Your task to perform on an android device: Go to ESPN.com Image 0: 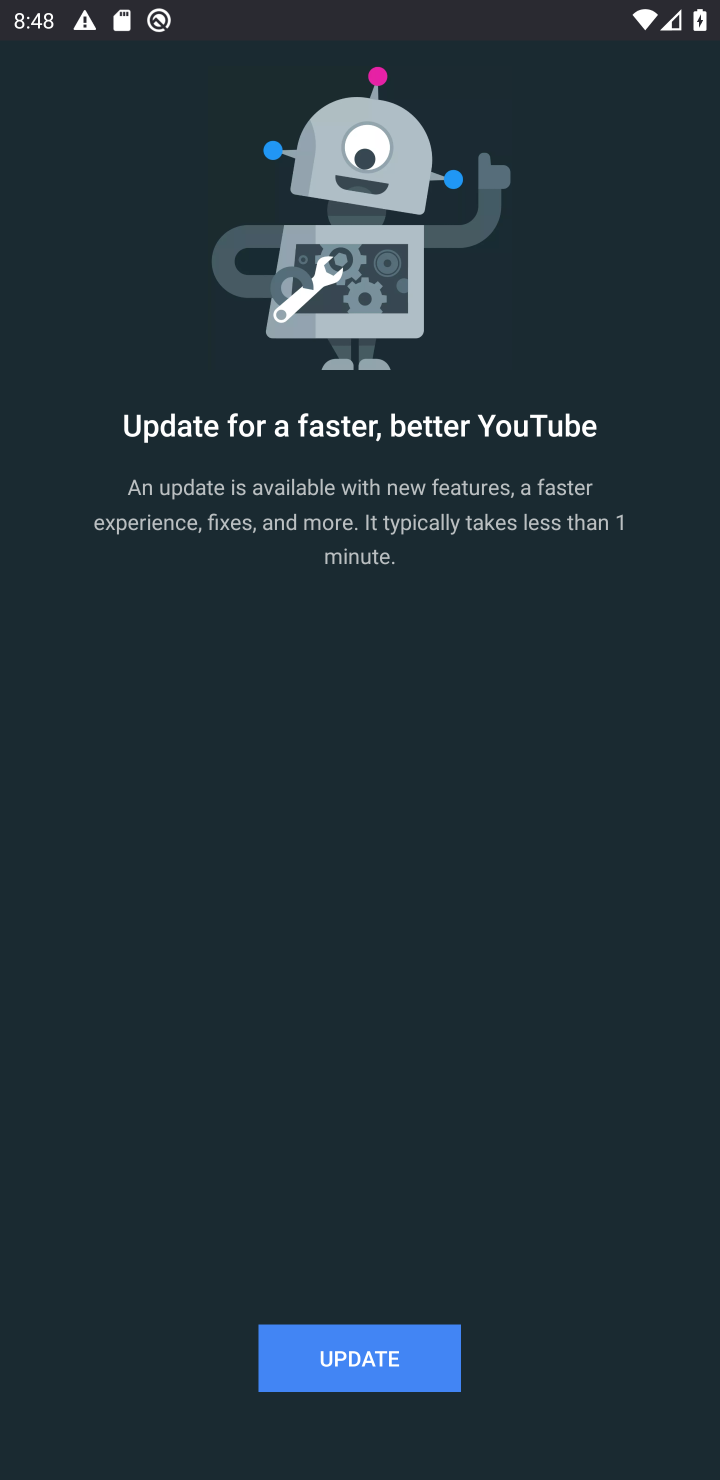
Step 0: drag from (384, 921) to (363, 510)
Your task to perform on an android device: Go to ESPN.com Image 1: 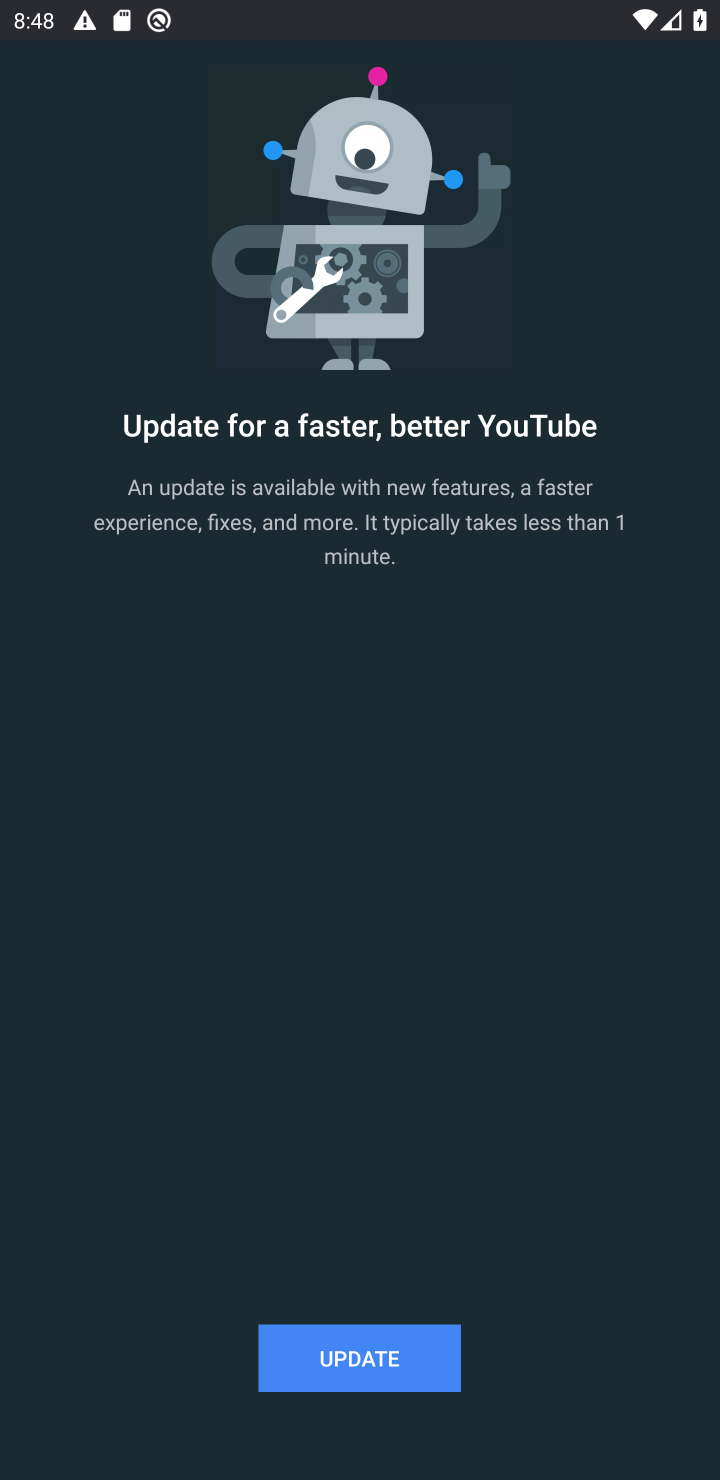
Step 1: click (337, 0)
Your task to perform on an android device: Go to ESPN.com Image 2: 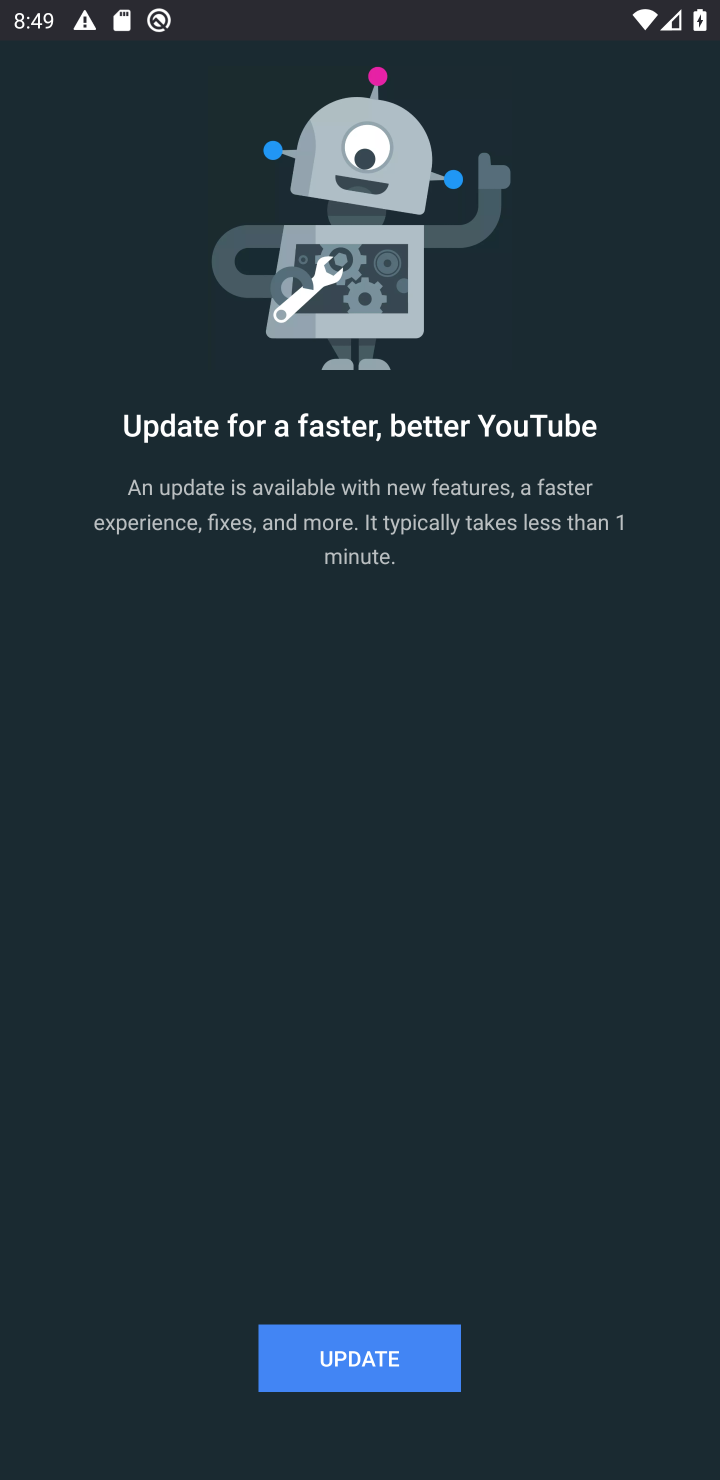
Step 2: press back button
Your task to perform on an android device: Go to ESPN.com Image 3: 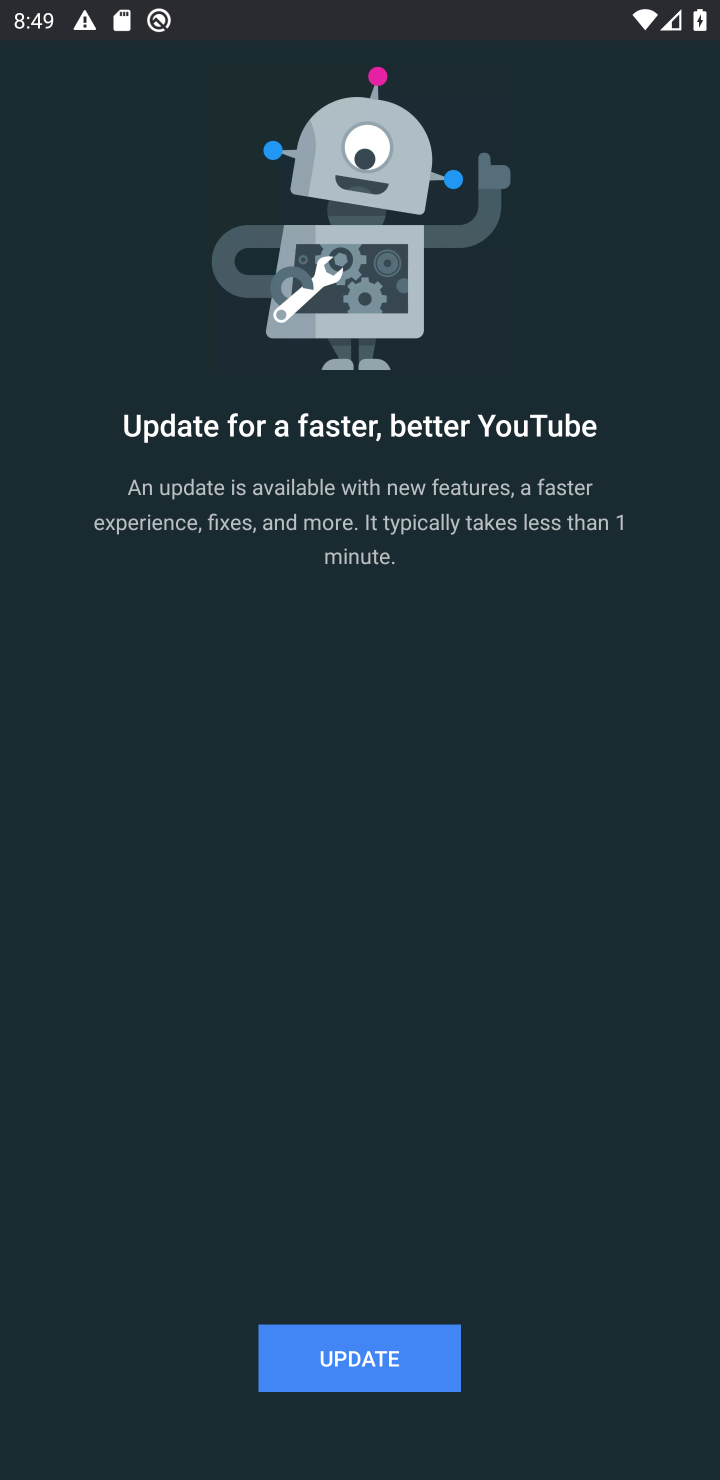
Step 3: press back button
Your task to perform on an android device: Go to ESPN.com Image 4: 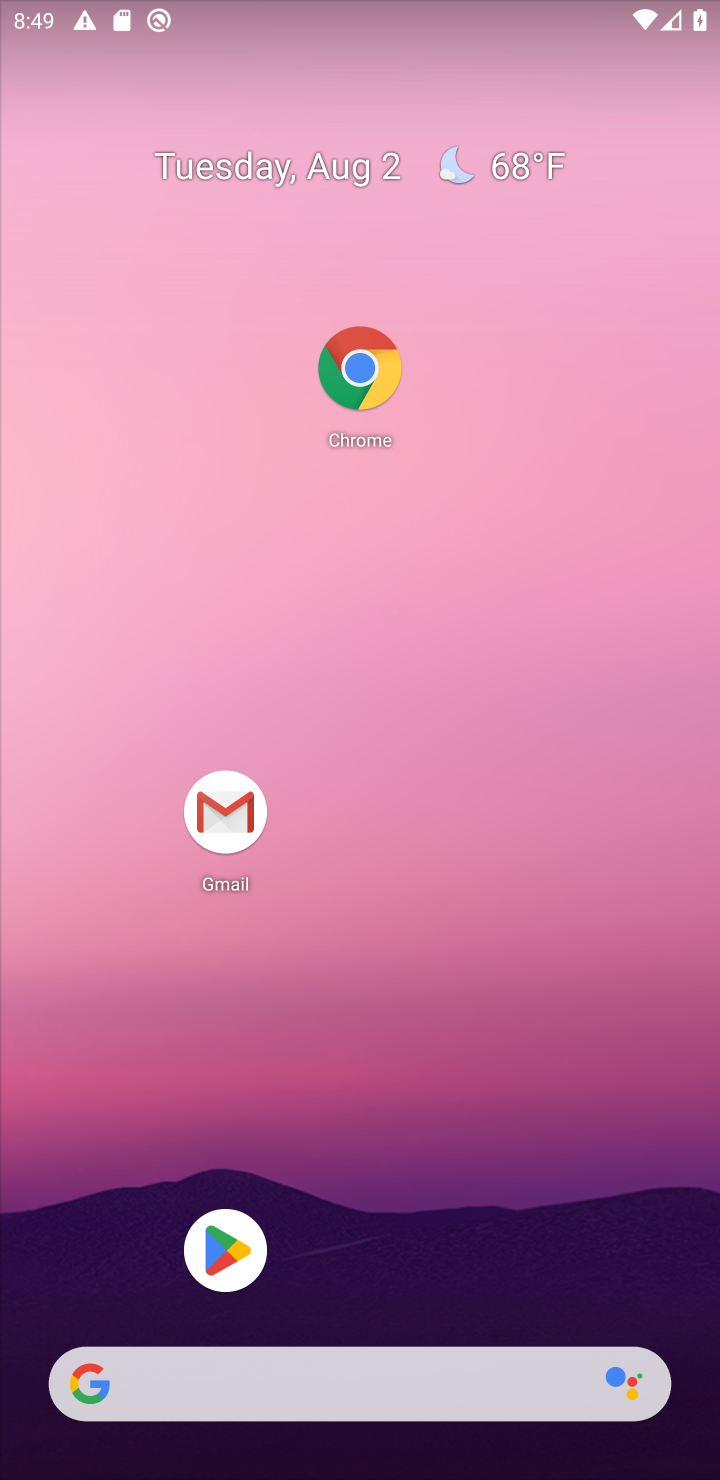
Step 4: click (356, 350)
Your task to perform on an android device: Go to ESPN.com Image 5: 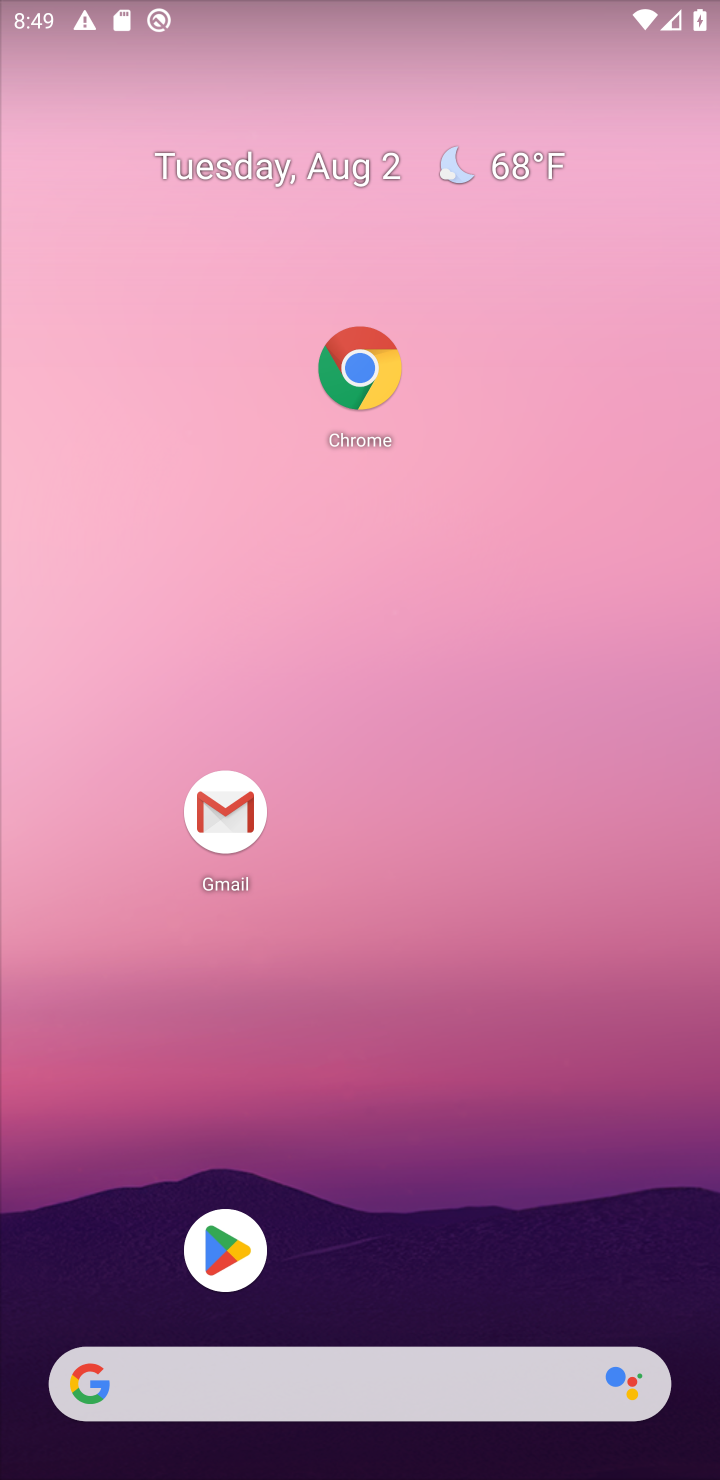
Step 5: drag from (332, 1061) to (300, 512)
Your task to perform on an android device: Go to ESPN.com Image 6: 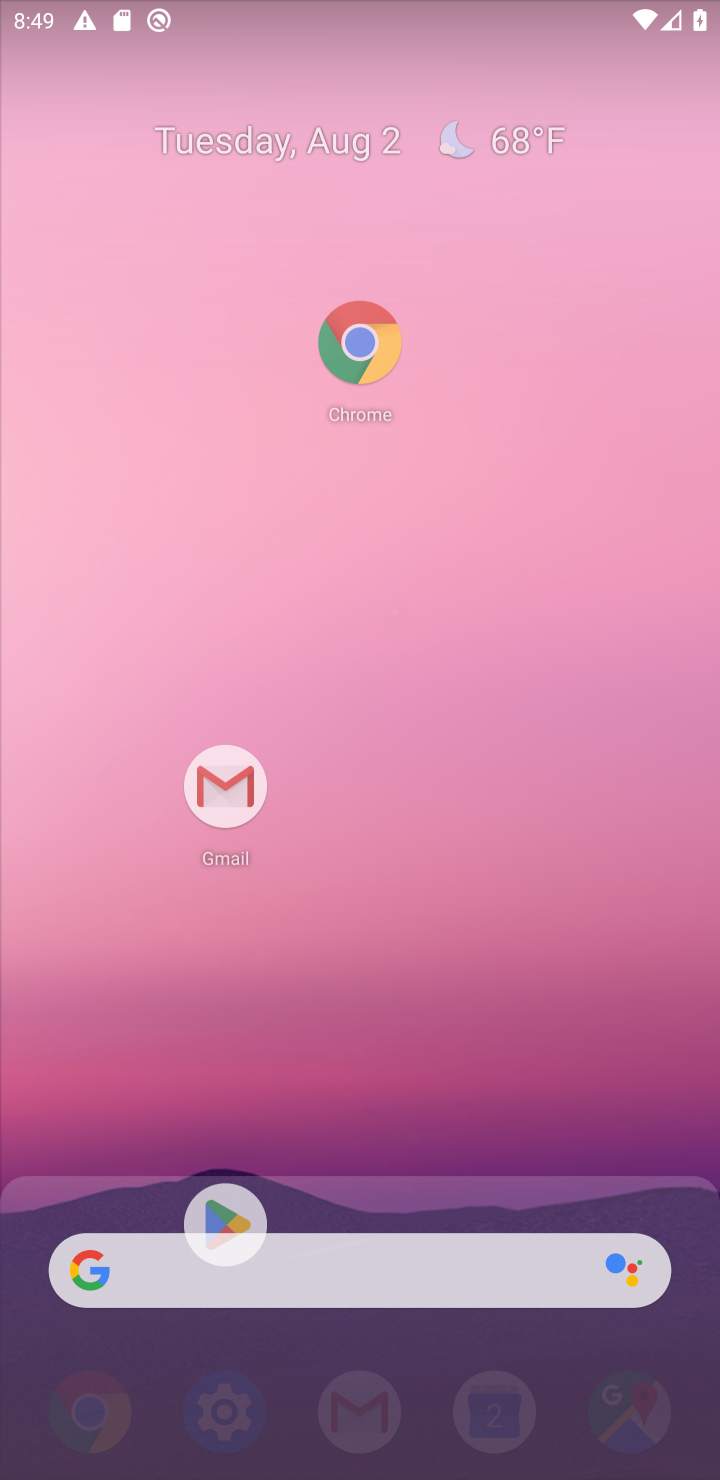
Step 6: drag from (333, 387) to (457, 332)
Your task to perform on an android device: Go to ESPN.com Image 7: 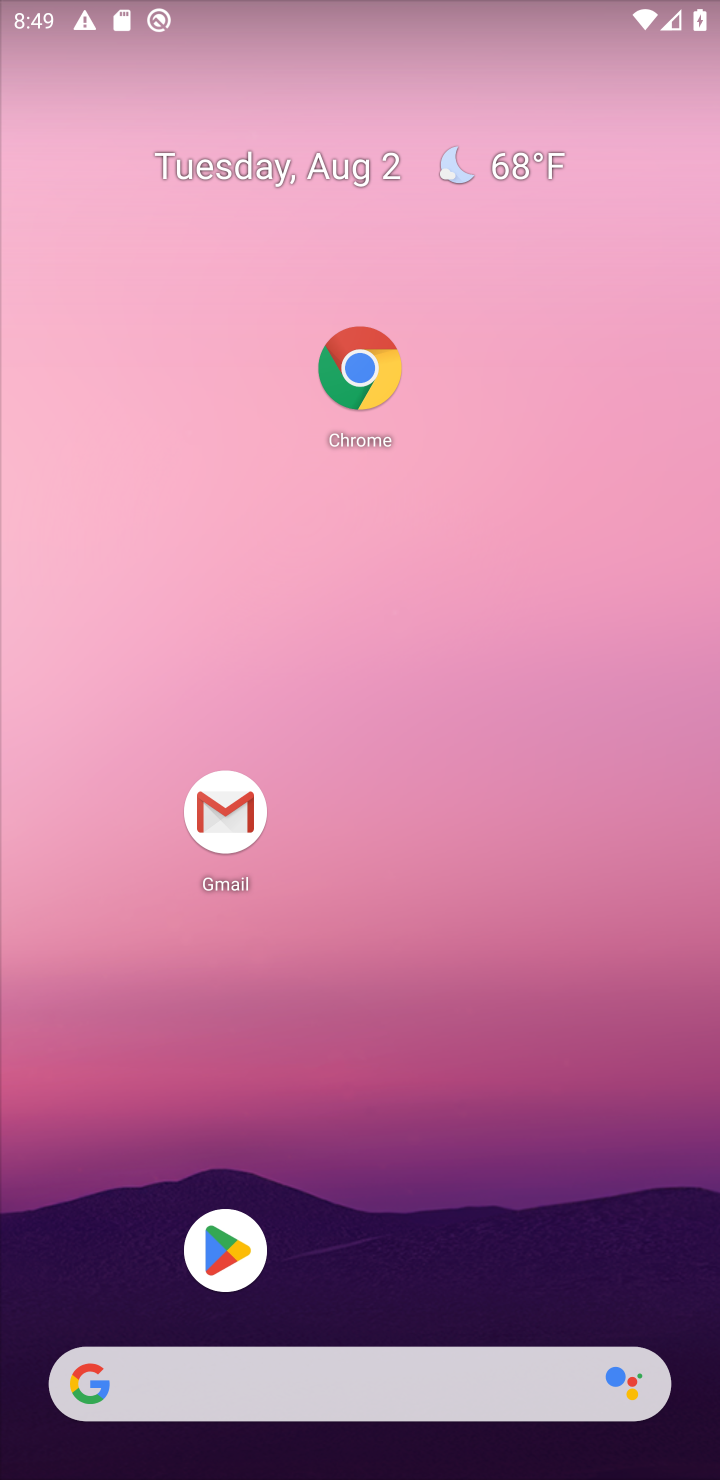
Step 7: drag from (455, 1268) to (440, 642)
Your task to perform on an android device: Go to ESPN.com Image 8: 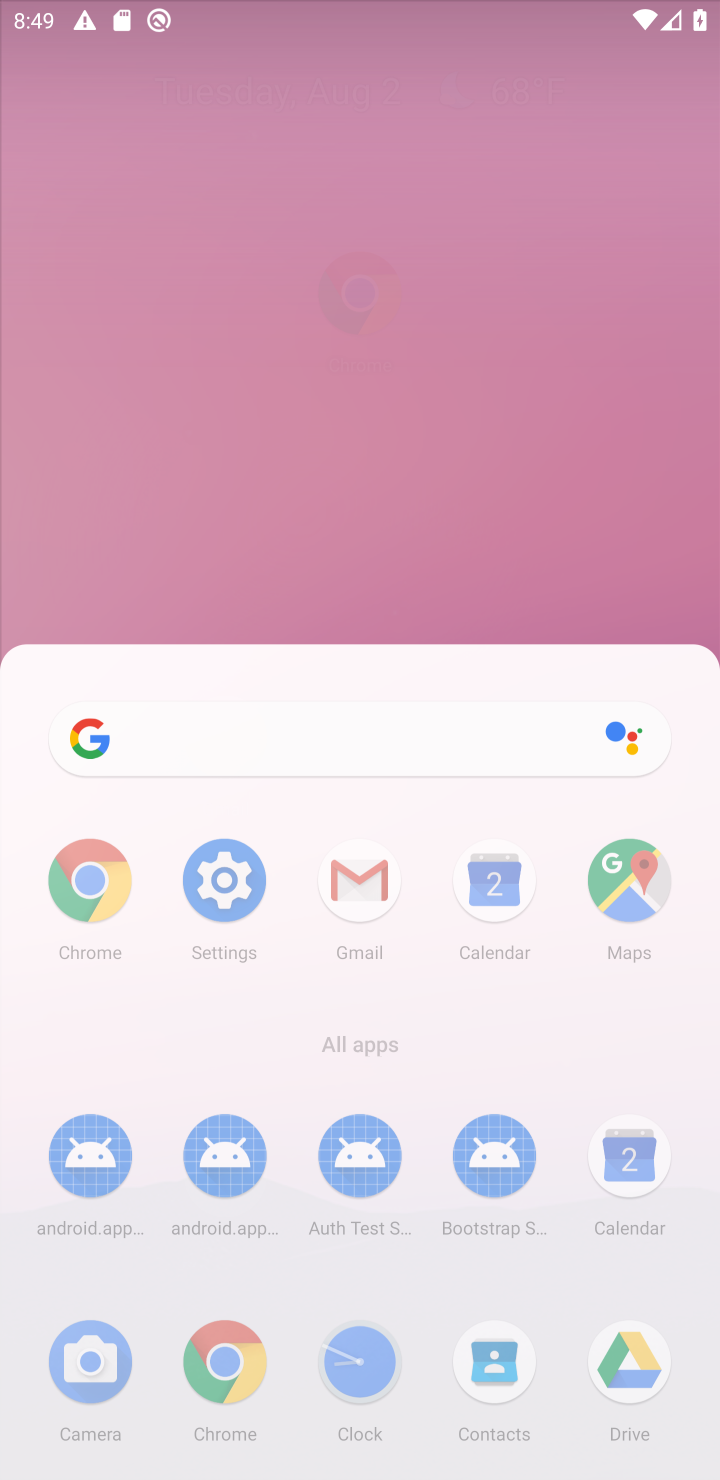
Step 8: drag from (446, 751) to (299, 664)
Your task to perform on an android device: Go to ESPN.com Image 9: 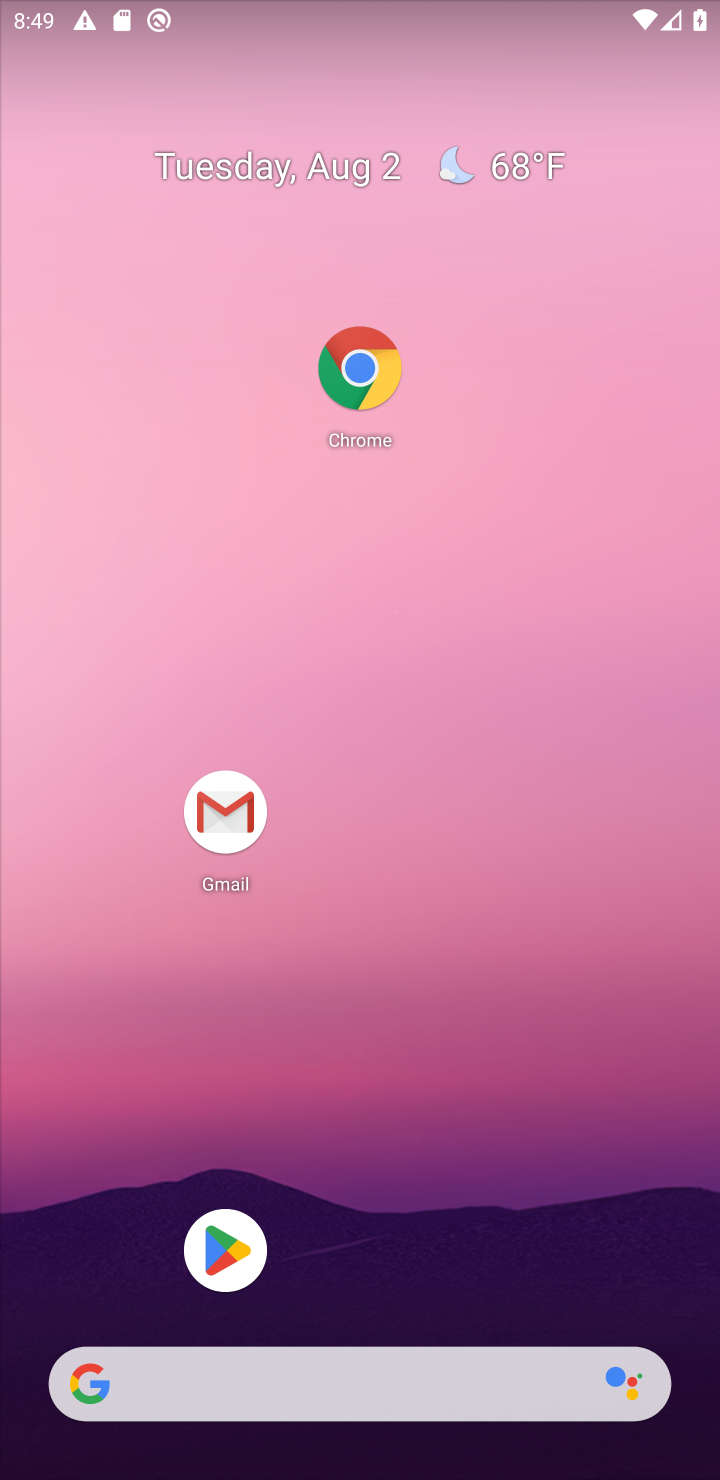
Step 9: drag from (350, 1174) to (299, 523)
Your task to perform on an android device: Go to ESPN.com Image 10: 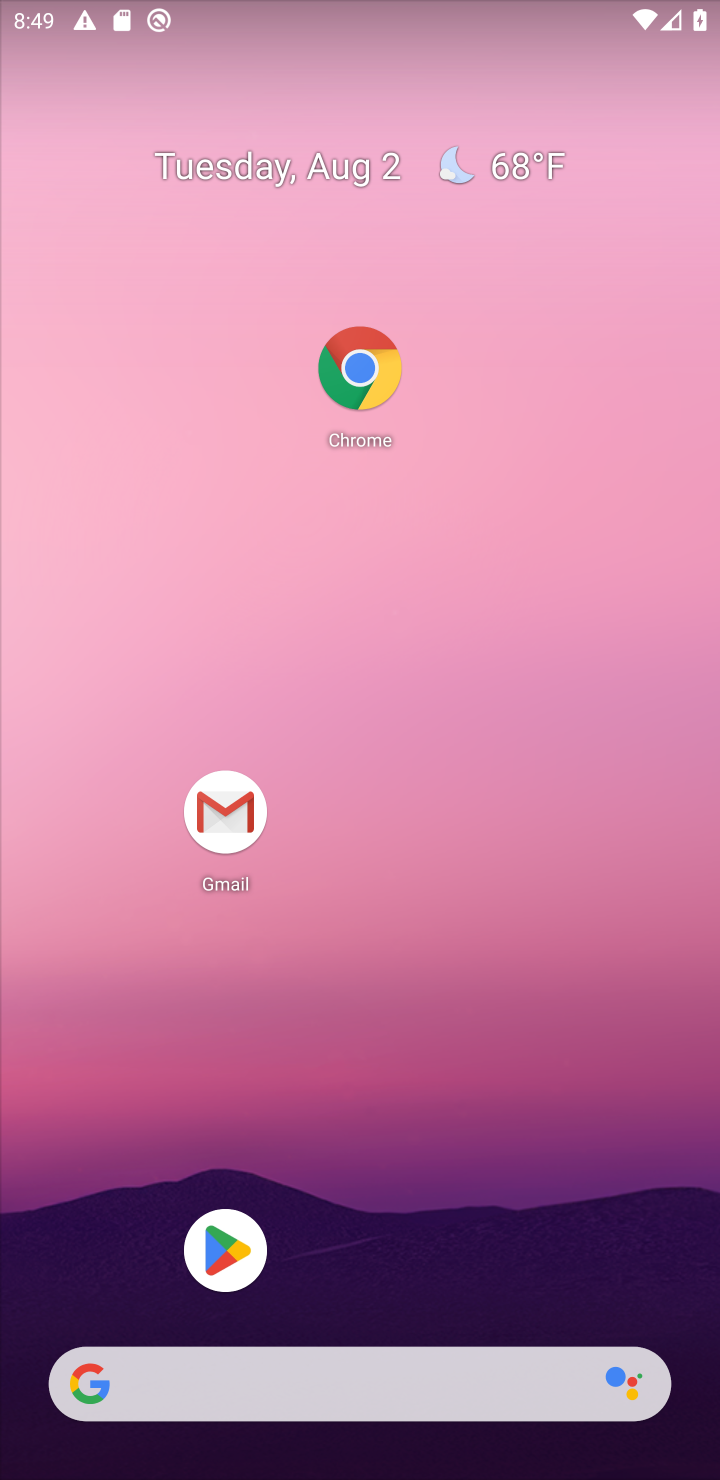
Step 10: drag from (361, 309) to (458, 651)
Your task to perform on an android device: Go to ESPN.com Image 11: 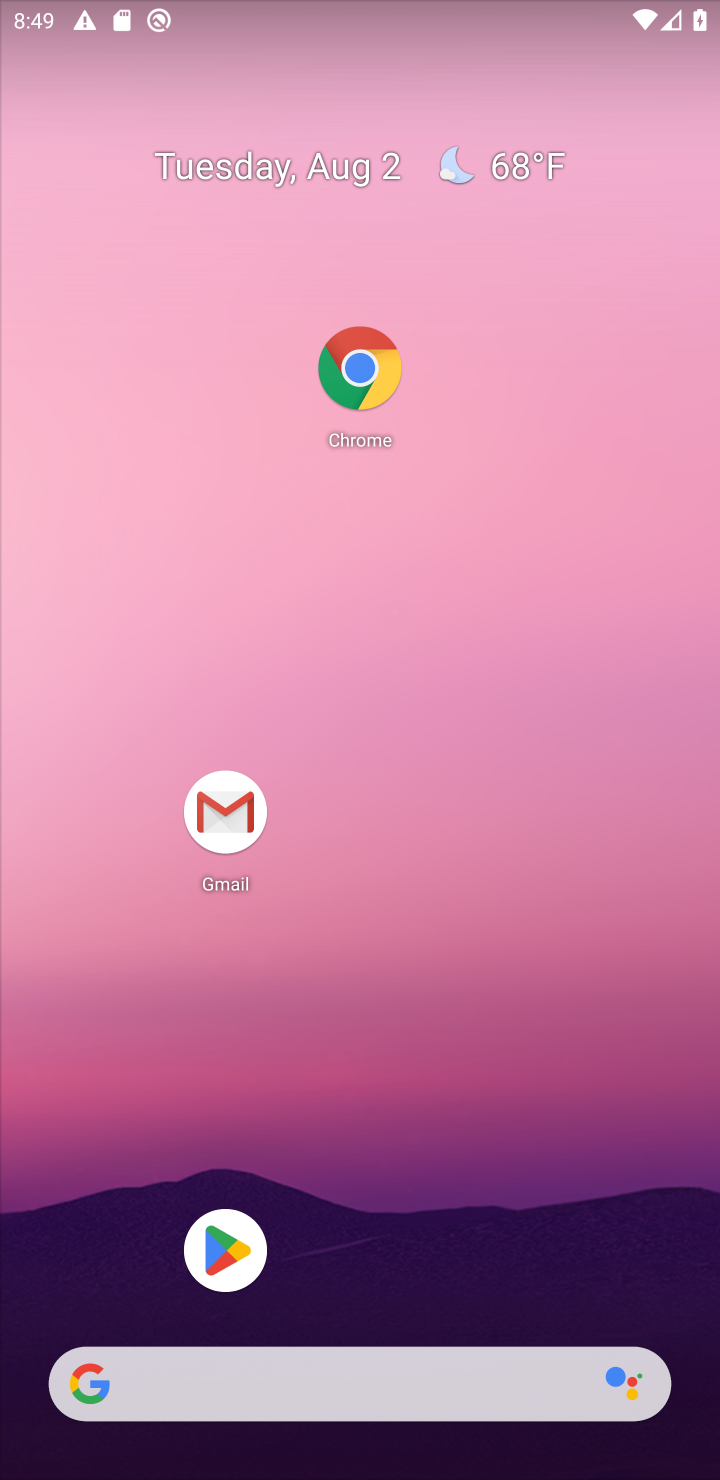
Step 11: drag from (427, 1236) to (461, 581)
Your task to perform on an android device: Go to ESPN.com Image 12: 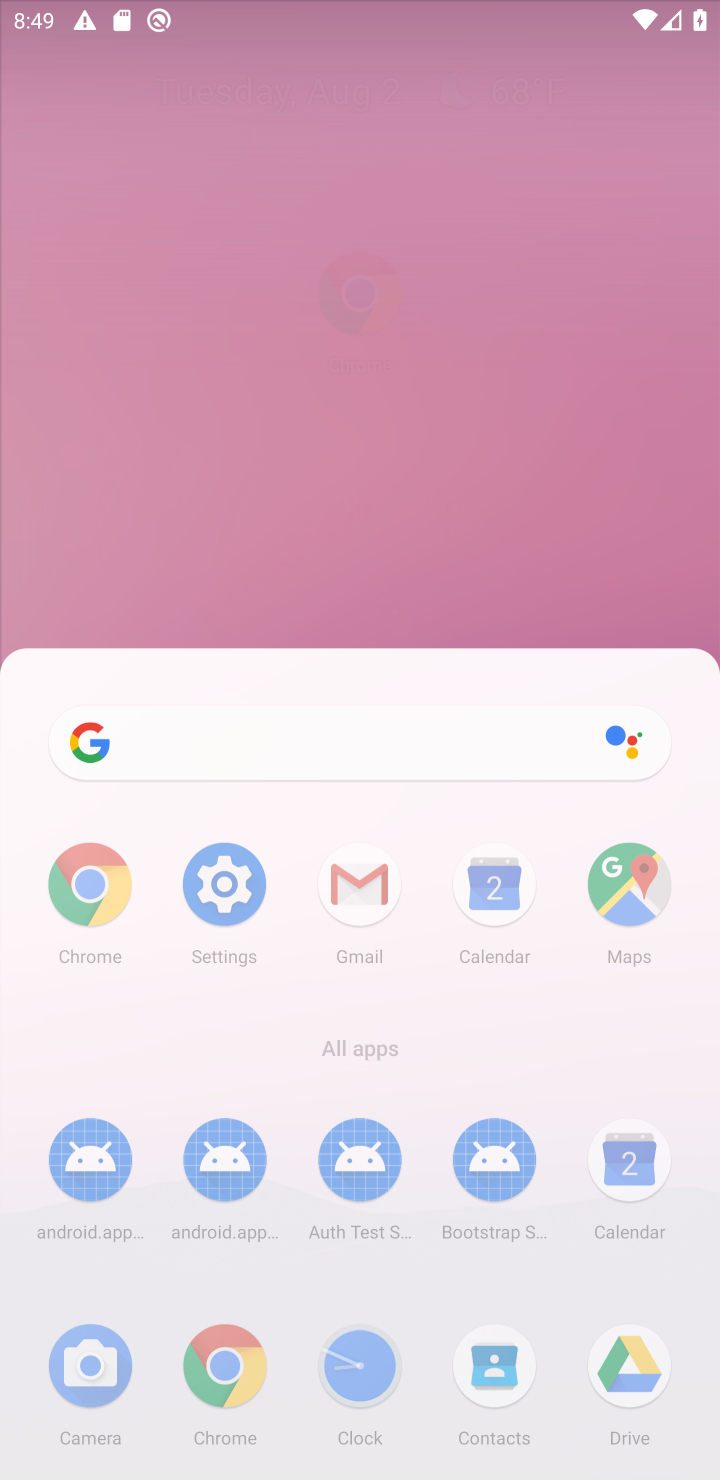
Step 12: click (334, 458)
Your task to perform on an android device: Go to ESPN.com Image 13: 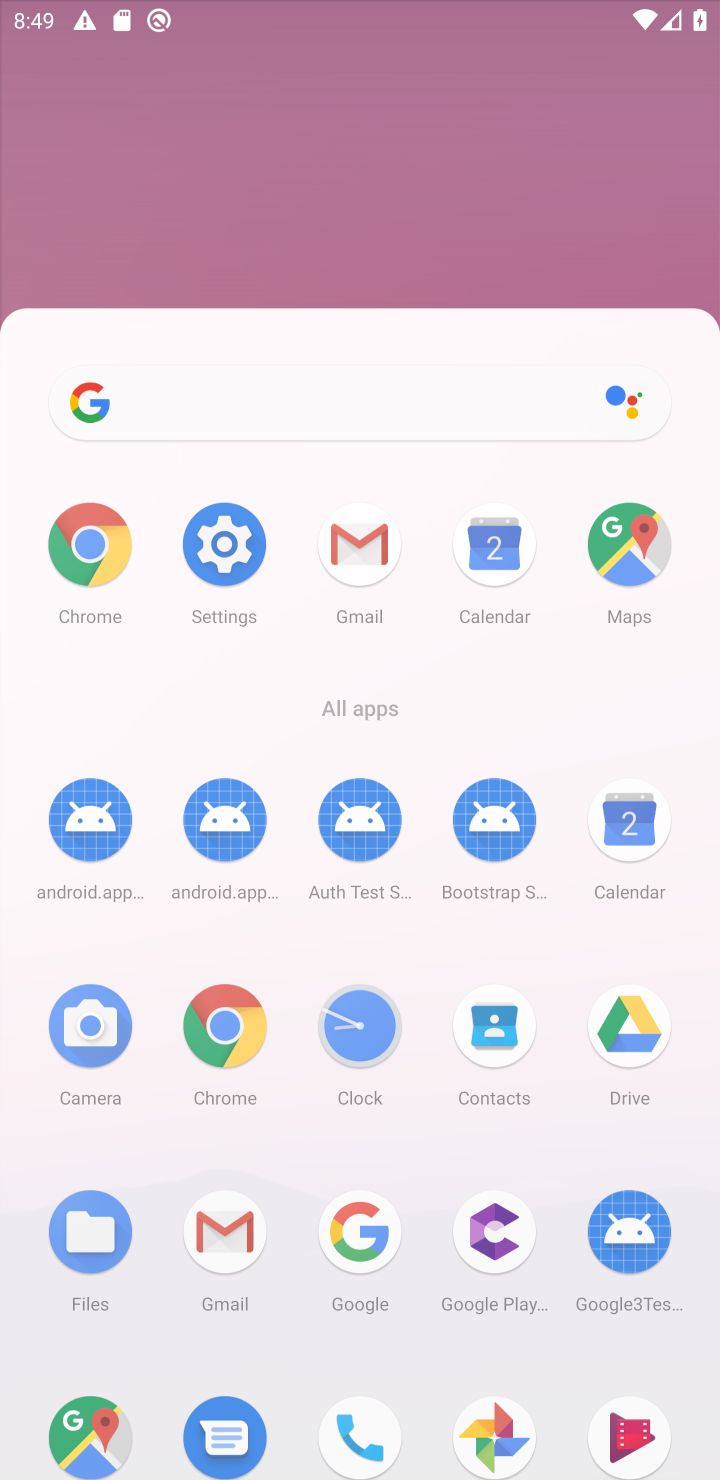
Step 13: drag from (451, 350) to (470, 153)
Your task to perform on an android device: Go to ESPN.com Image 14: 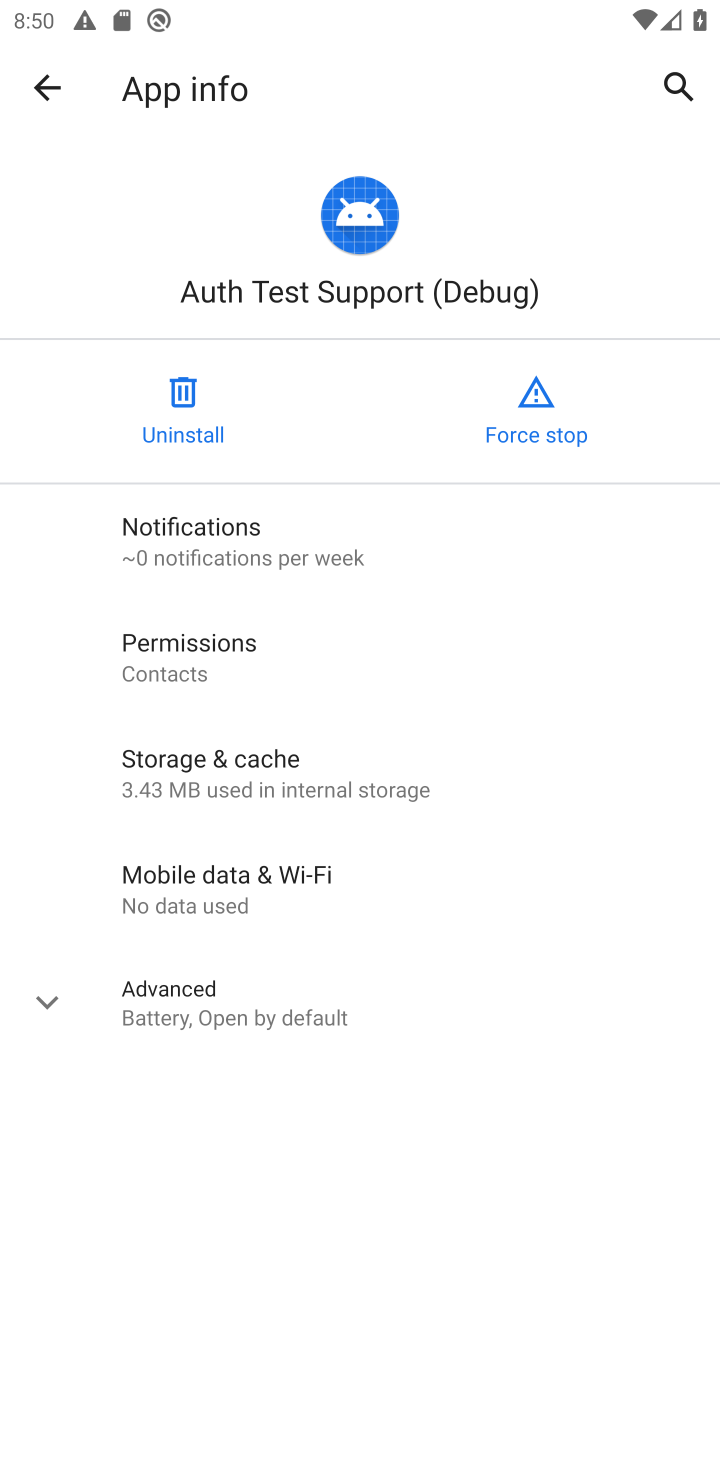
Step 14: click (38, 99)
Your task to perform on an android device: Go to ESPN.com Image 15: 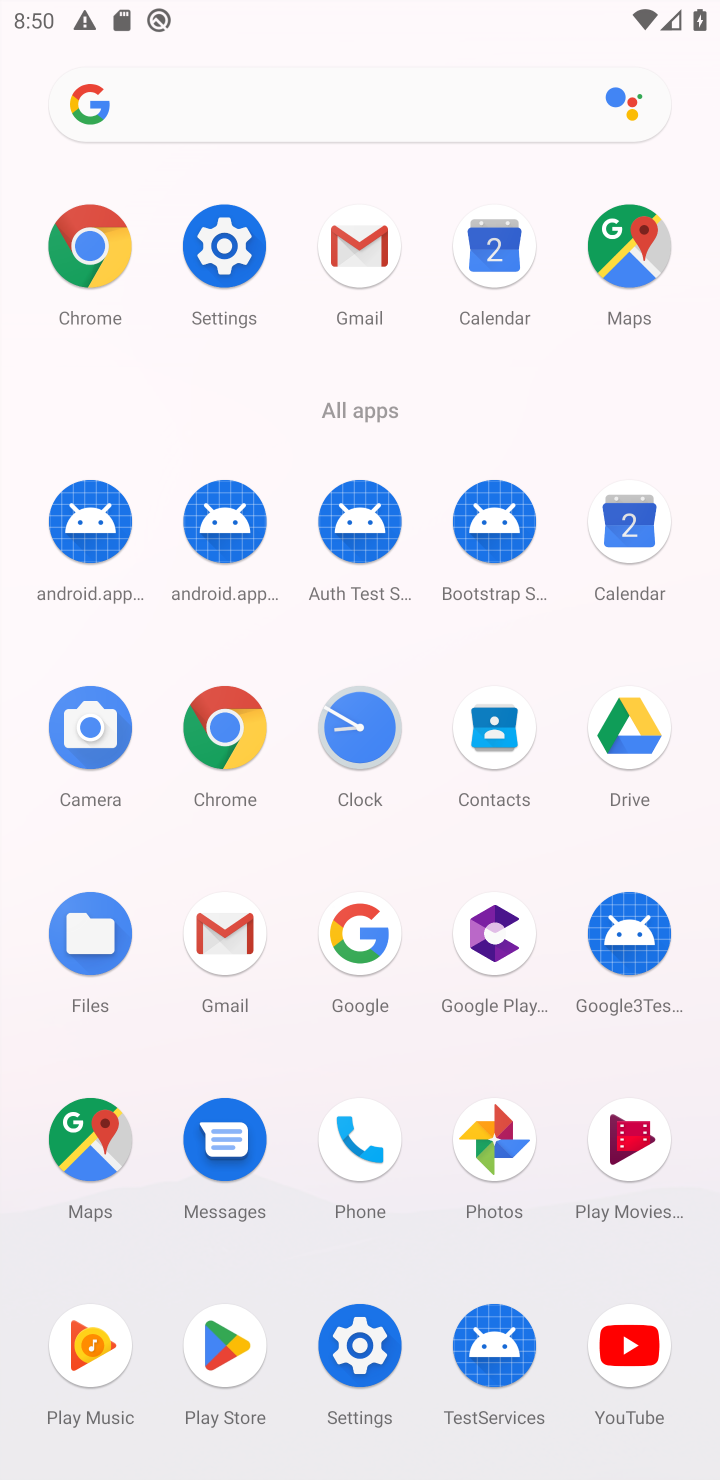
Step 15: click (85, 265)
Your task to perform on an android device: Go to ESPN.com Image 16: 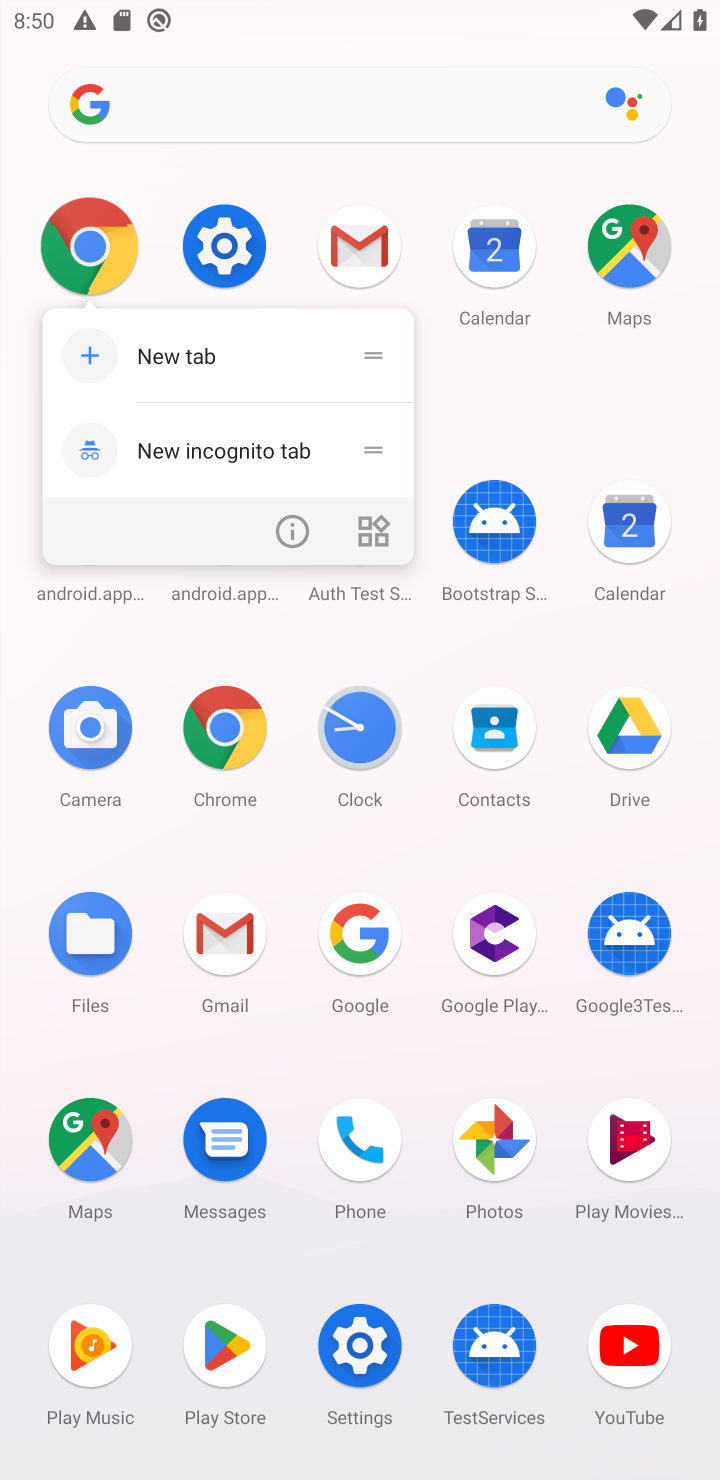
Step 16: click (83, 265)
Your task to perform on an android device: Go to ESPN.com Image 17: 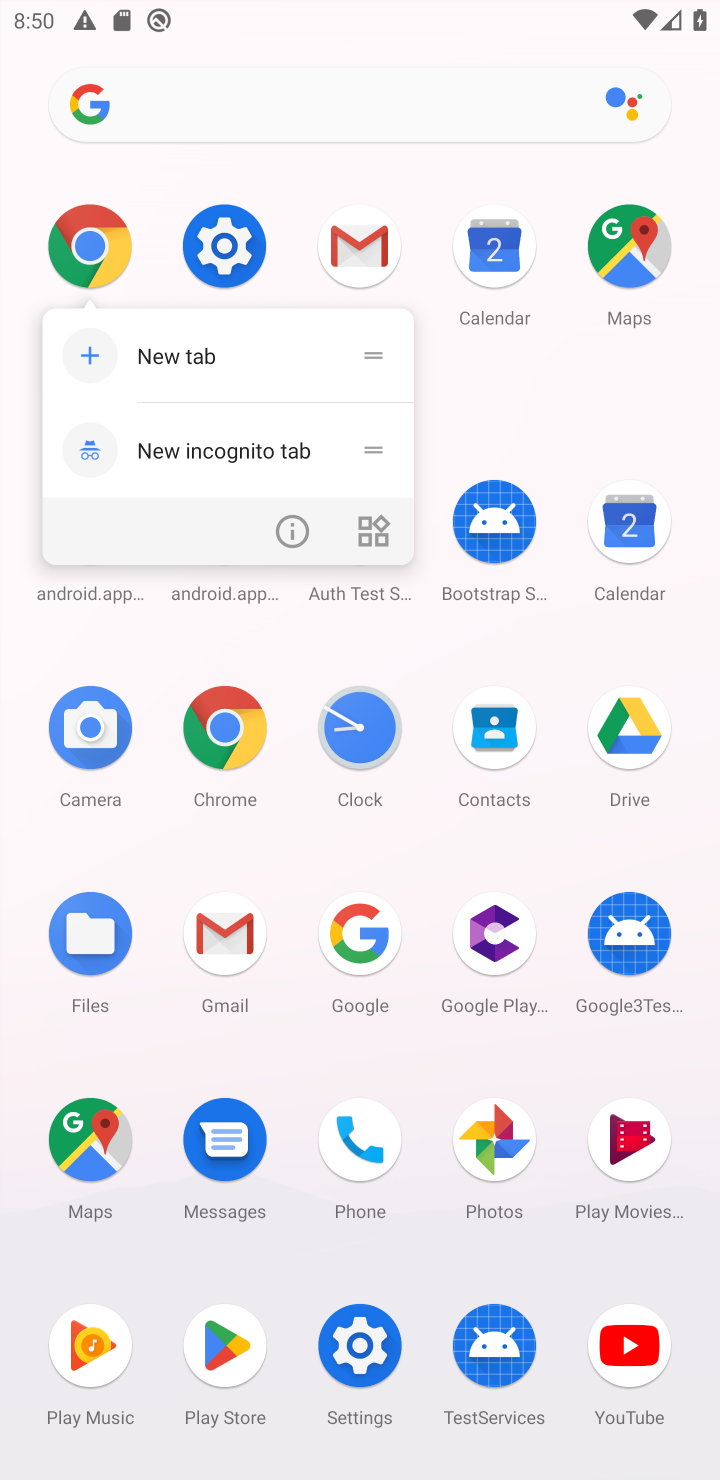
Step 17: click (83, 265)
Your task to perform on an android device: Go to ESPN.com Image 18: 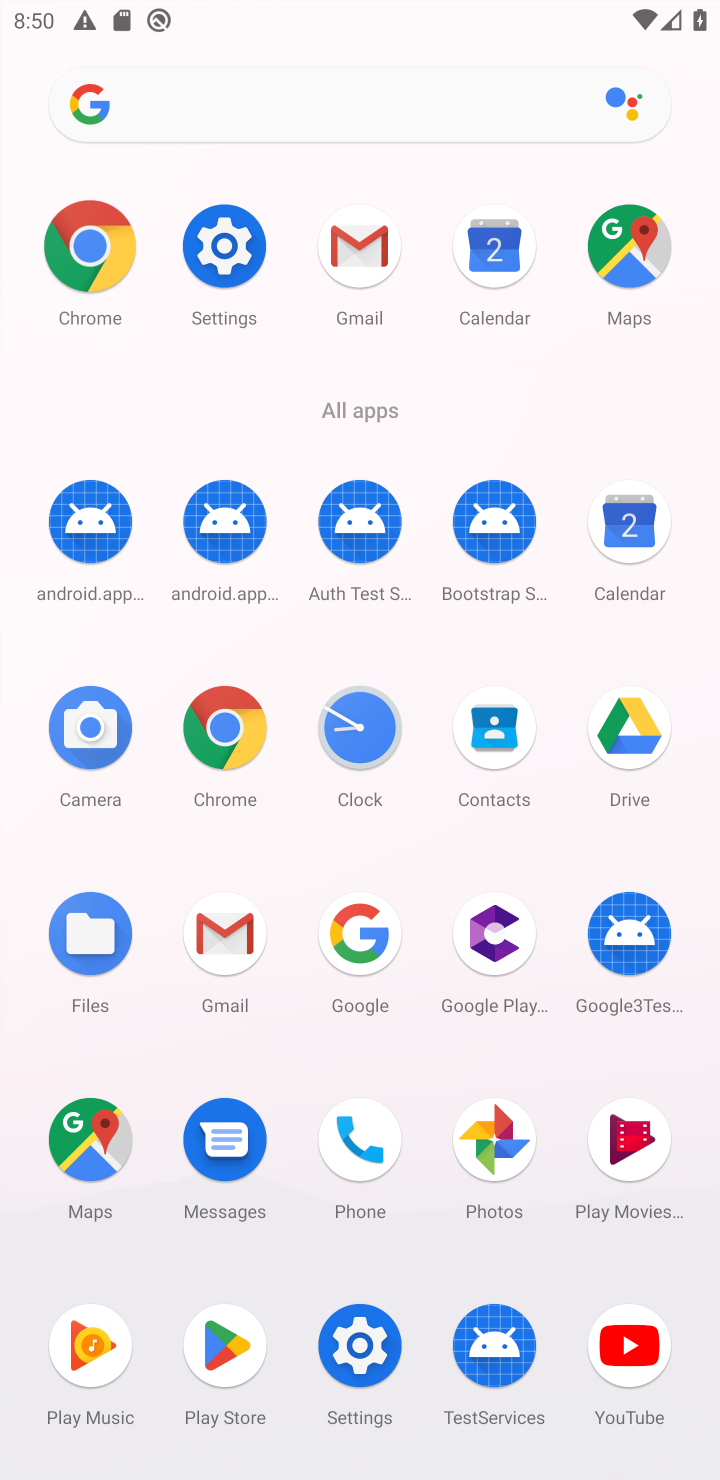
Step 18: click (87, 250)
Your task to perform on an android device: Go to ESPN.com Image 19: 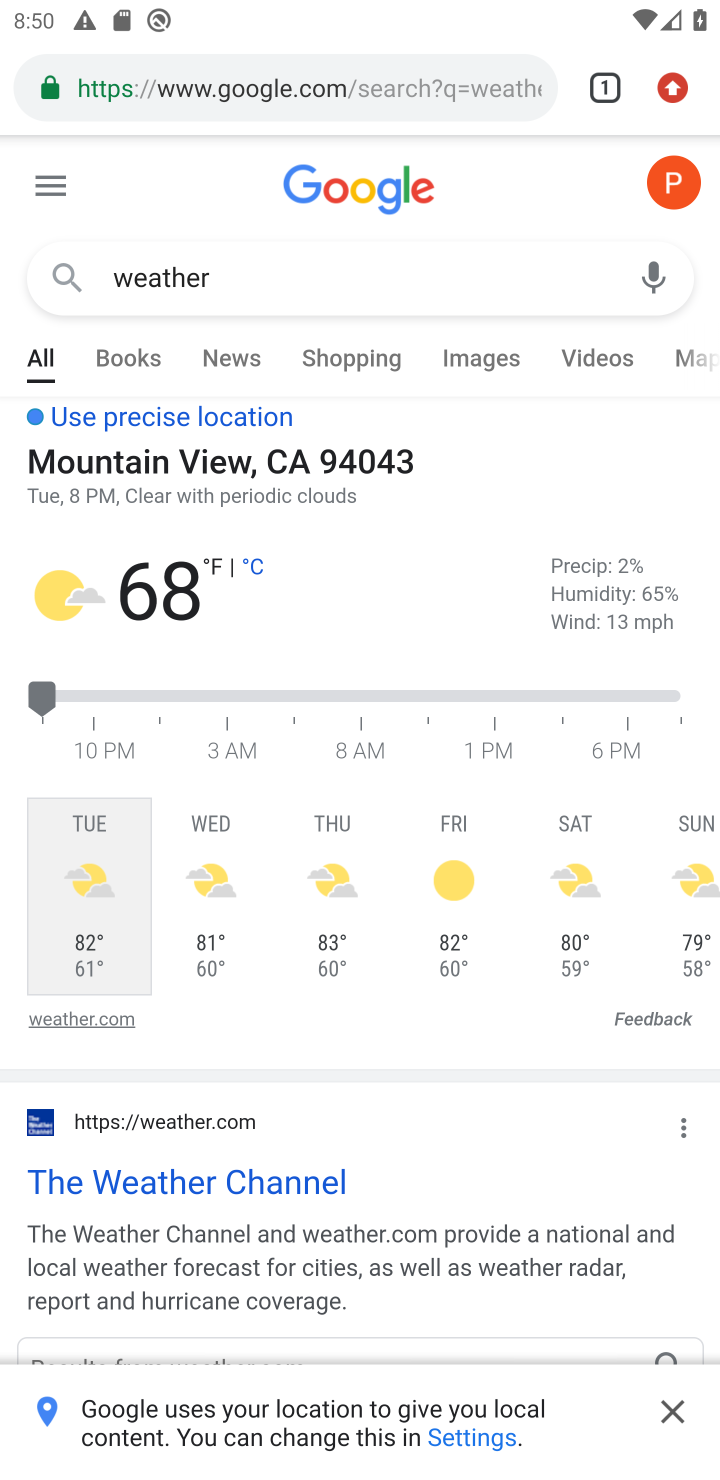
Step 19: click (670, 94)
Your task to perform on an android device: Go to ESPN.com Image 20: 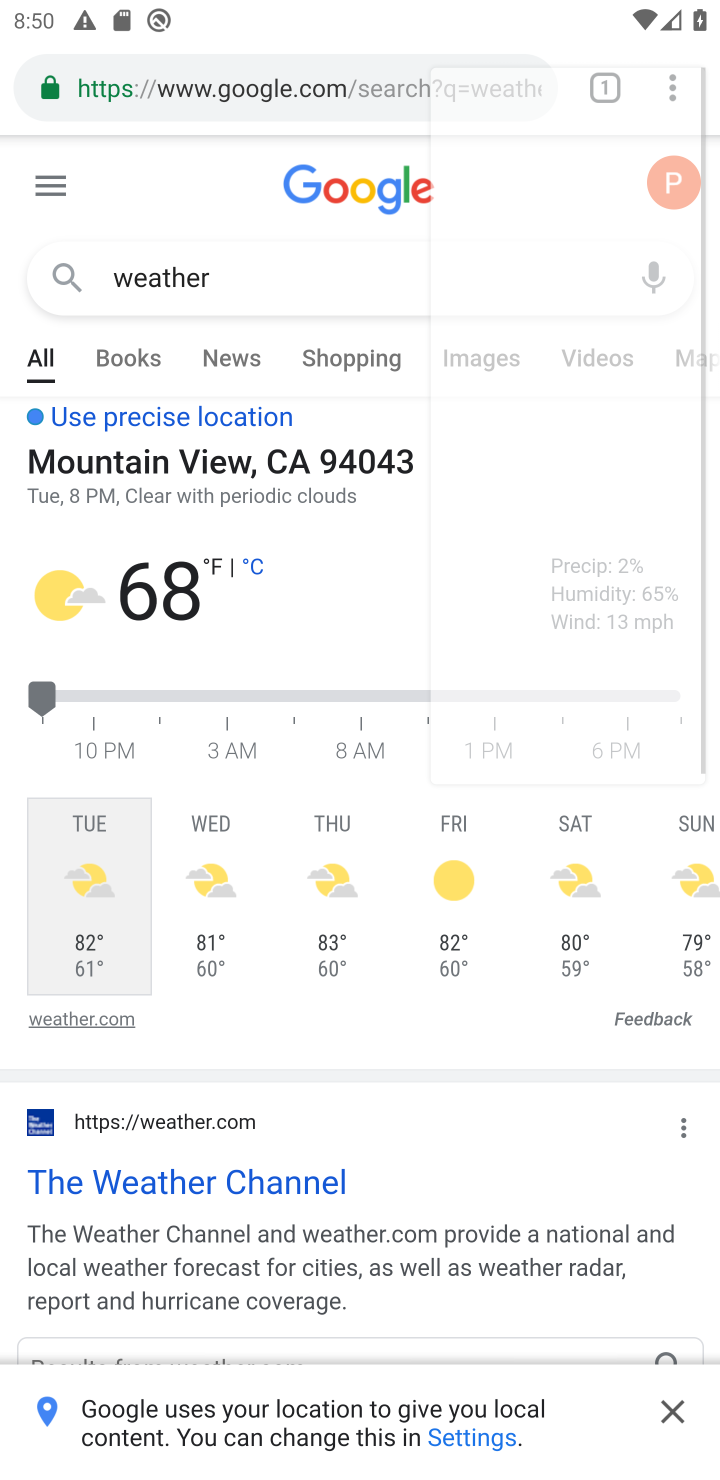
Step 20: drag from (640, 427) to (354, 875)
Your task to perform on an android device: Go to ESPN.com Image 21: 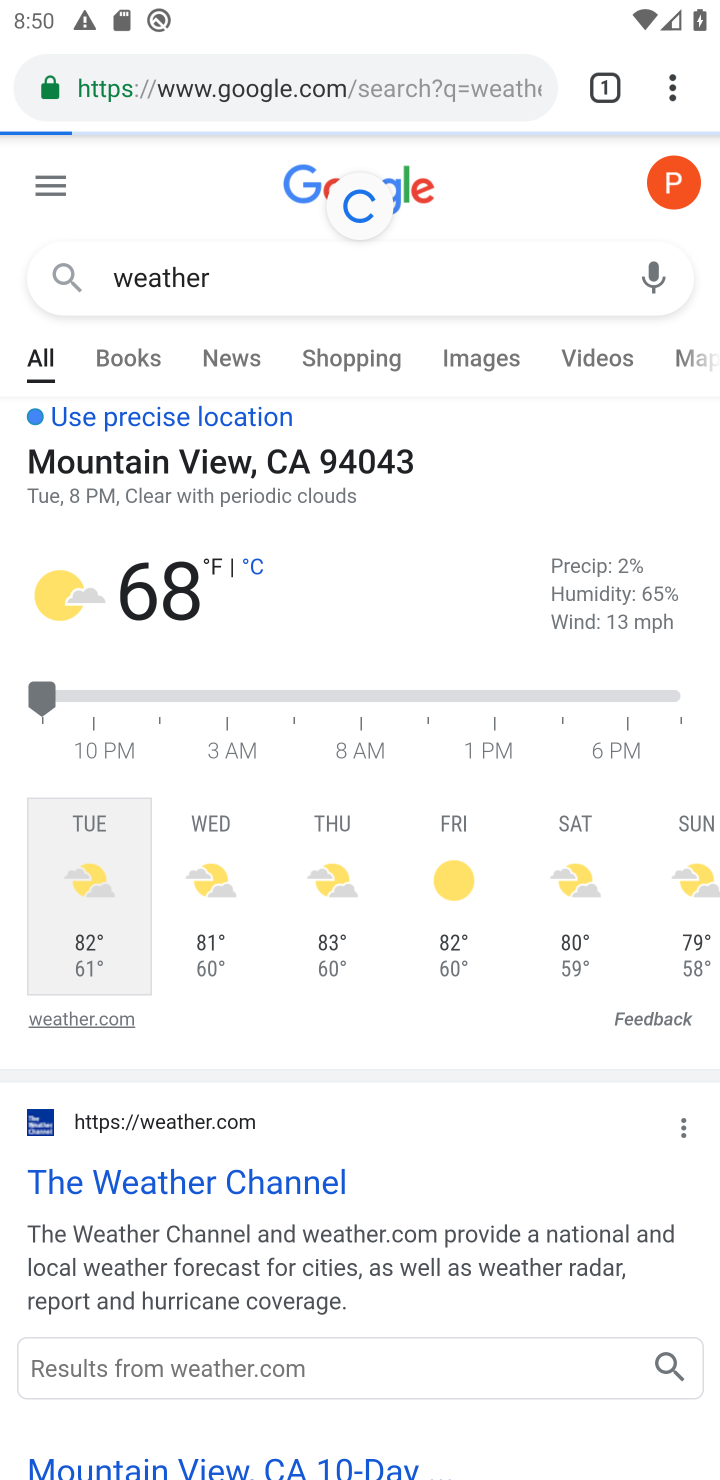
Step 21: click (670, 75)
Your task to perform on an android device: Go to ESPN.com Image 22: 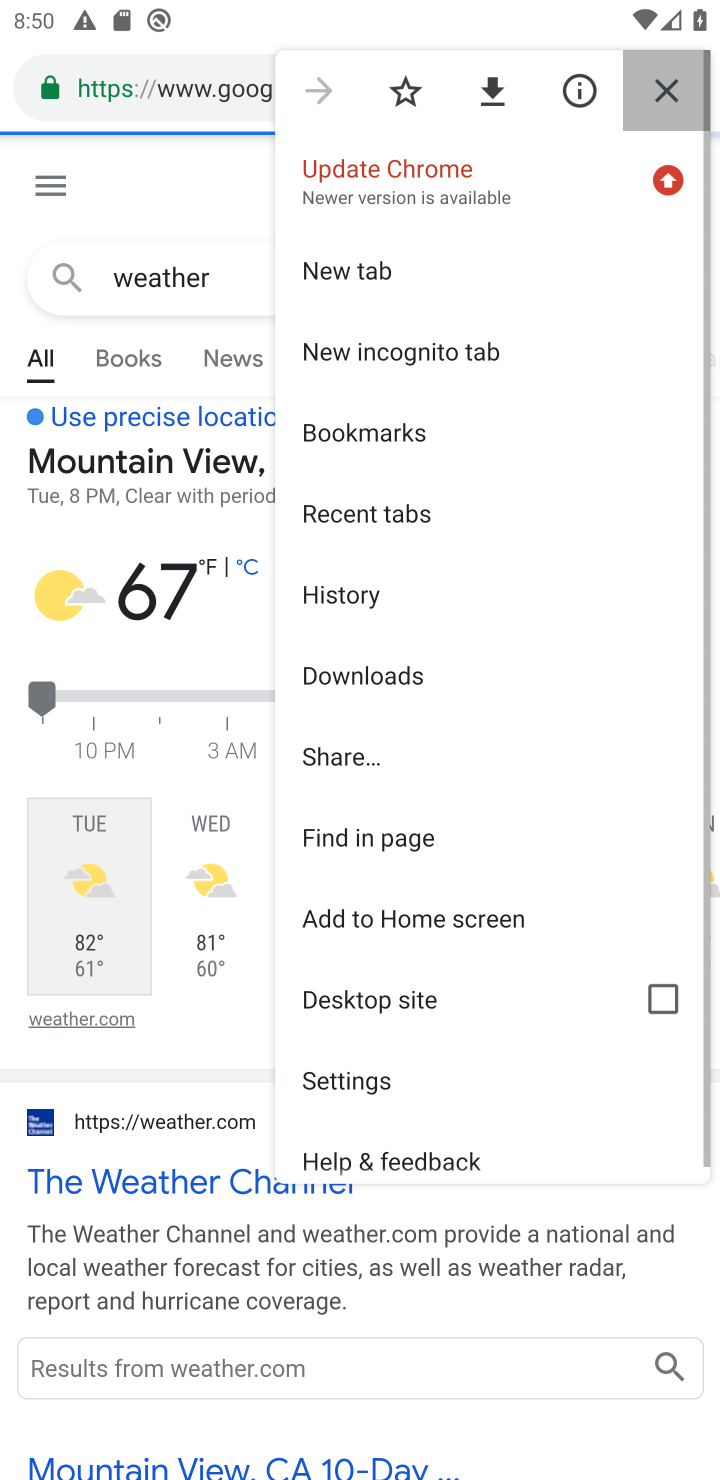
Step 22: click (677, 82)
Your task to perform on an android device: Go to ESPN.com Image 23: 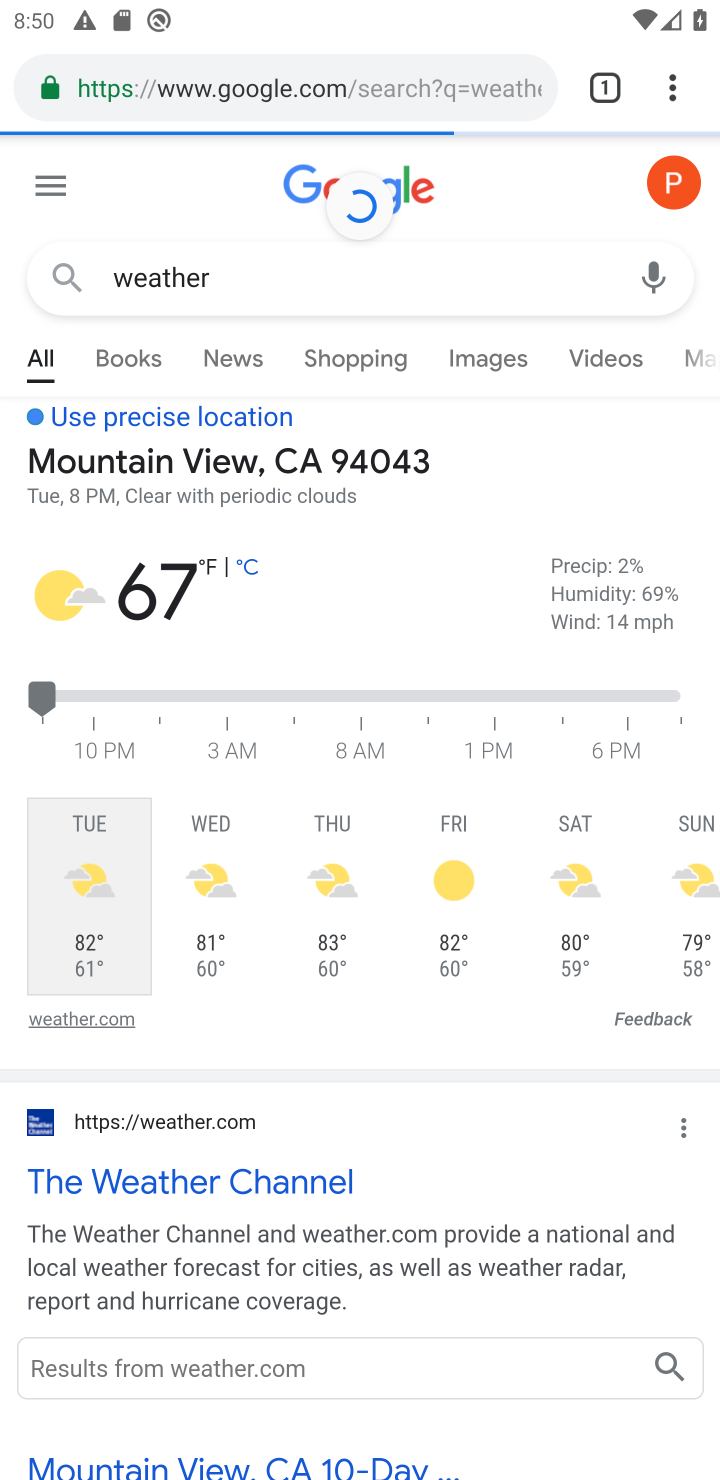
Step 23: click (677, 82)
Your task to perform on an android device: Go to ESPN.com Image 24: 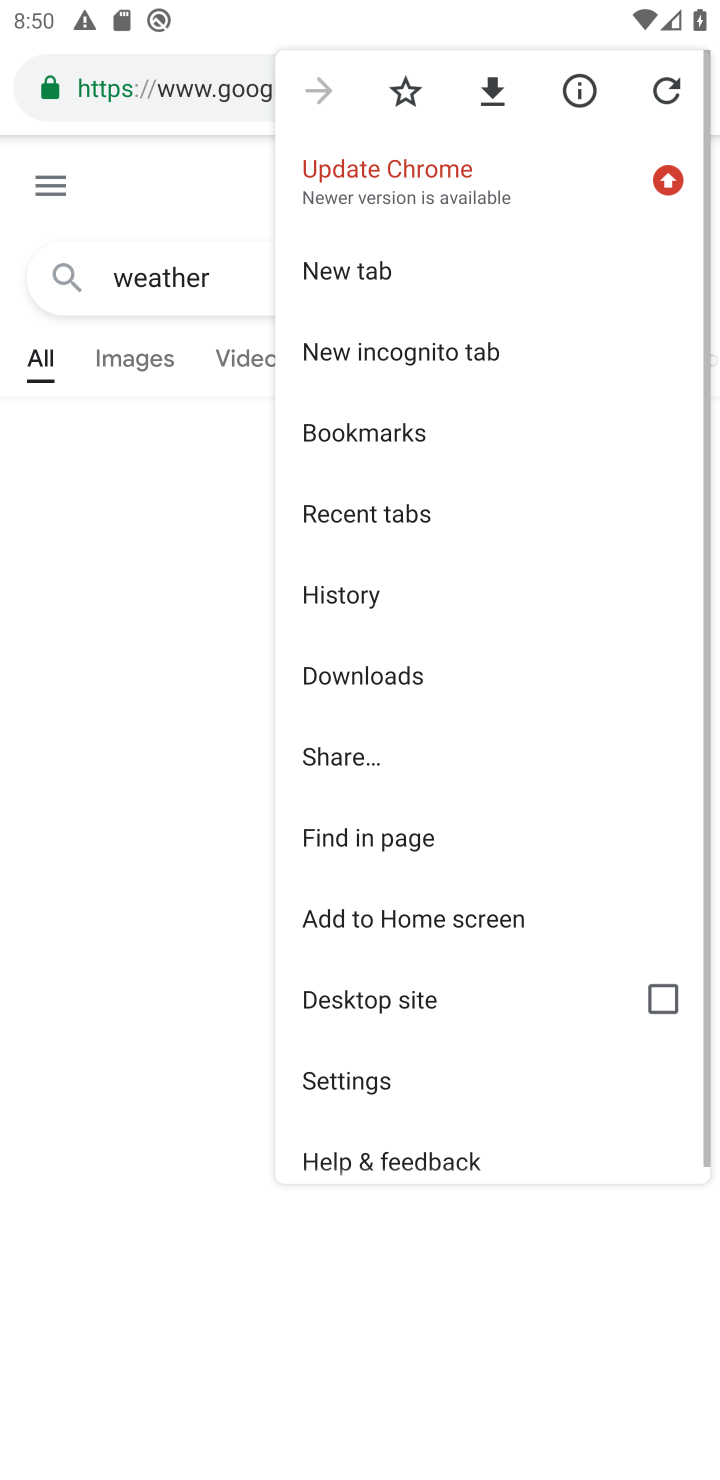
Step 24: drag from (669, 95) to (308, 295)
Your task to perform on an android device: Go to ESPN.com Image 25: 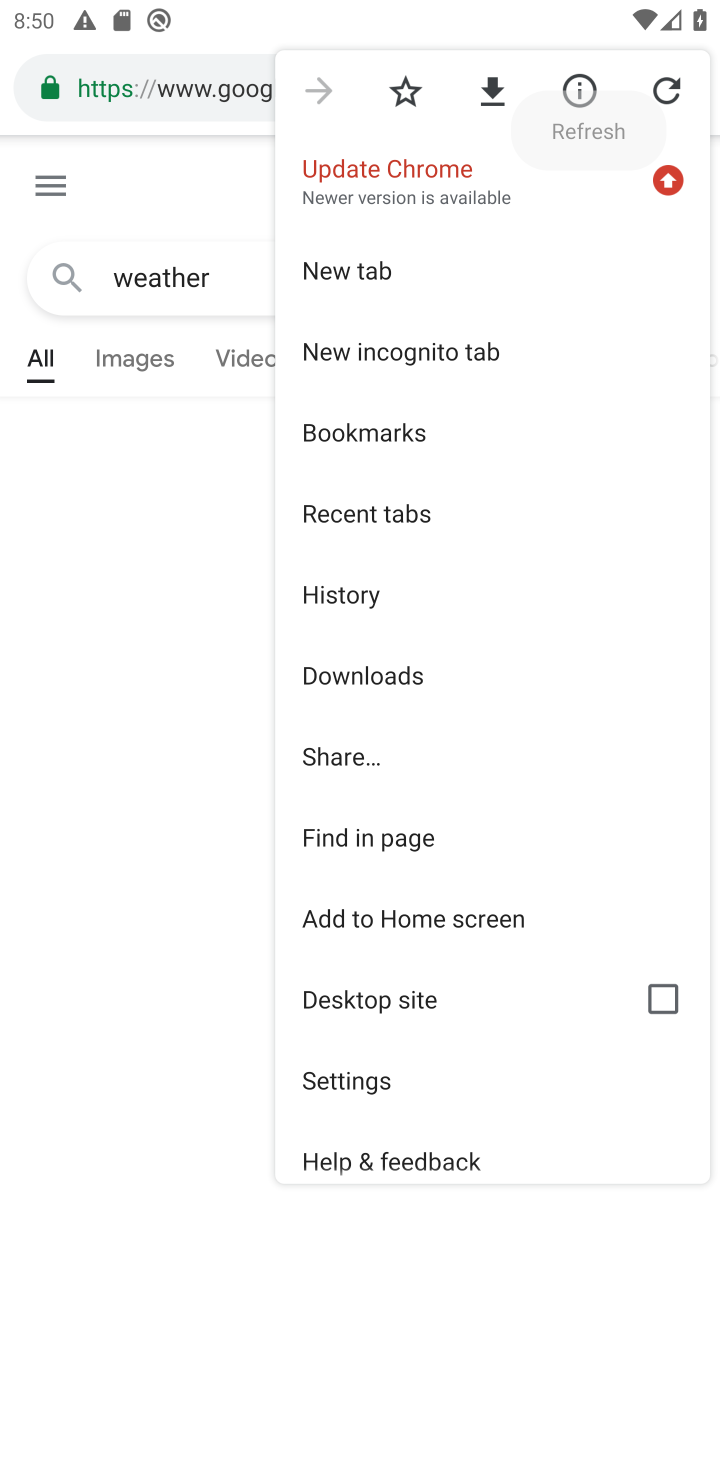
Step 25: click (332, 263)
Your task to perform on an android device: Go to ESPN.com Image 26: 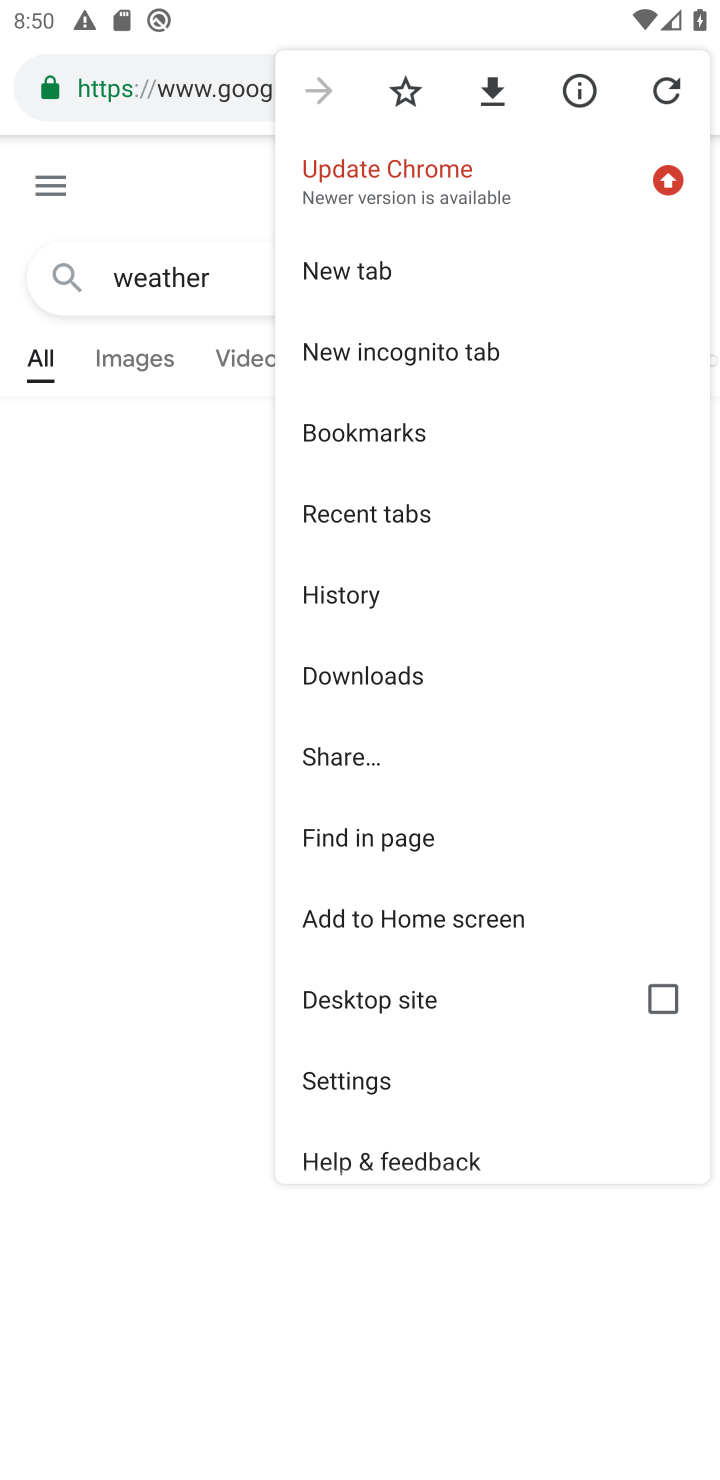
Step 26: click (332, 263)
Your task to perform on an android device: Go to ESPN.com Image 27: 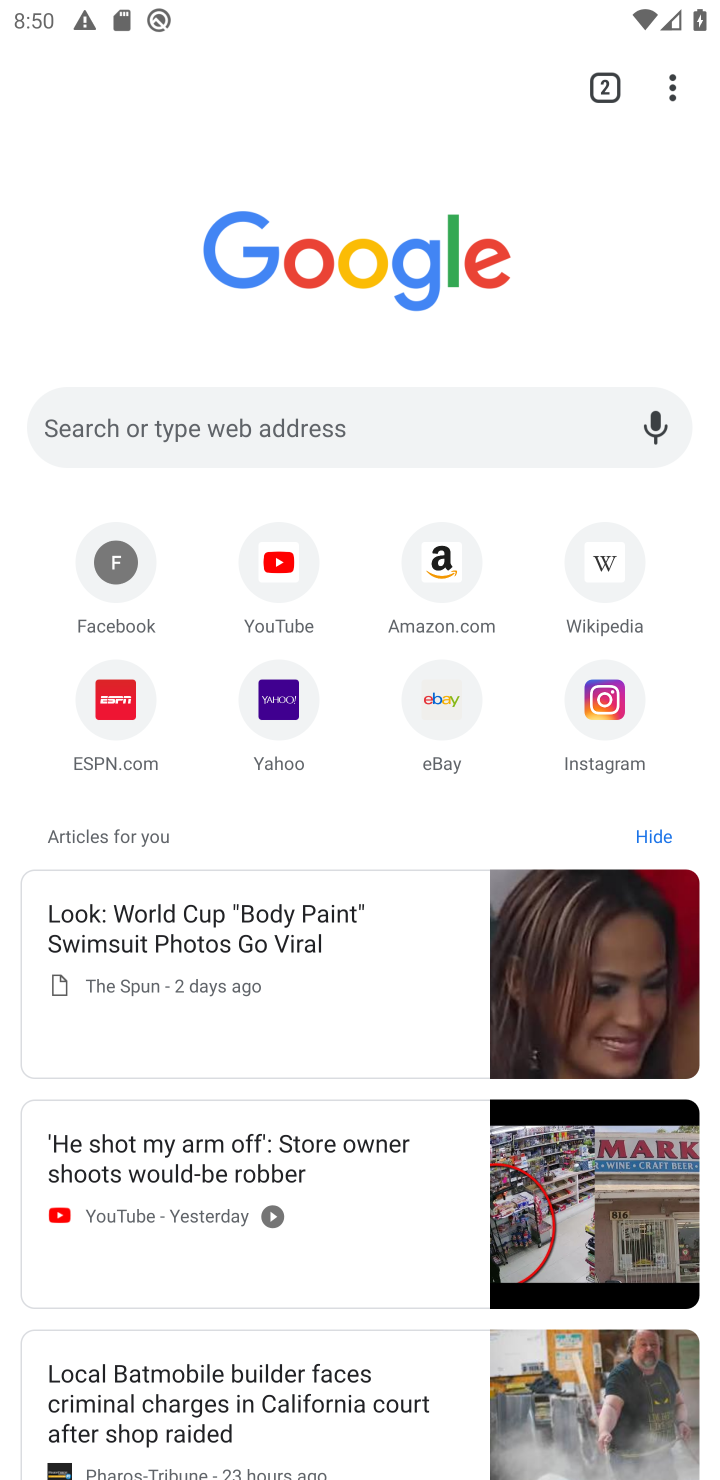
Step 27: click (117, 701)
Your task to perform on an android device: Go to ESPN.com Image 28: 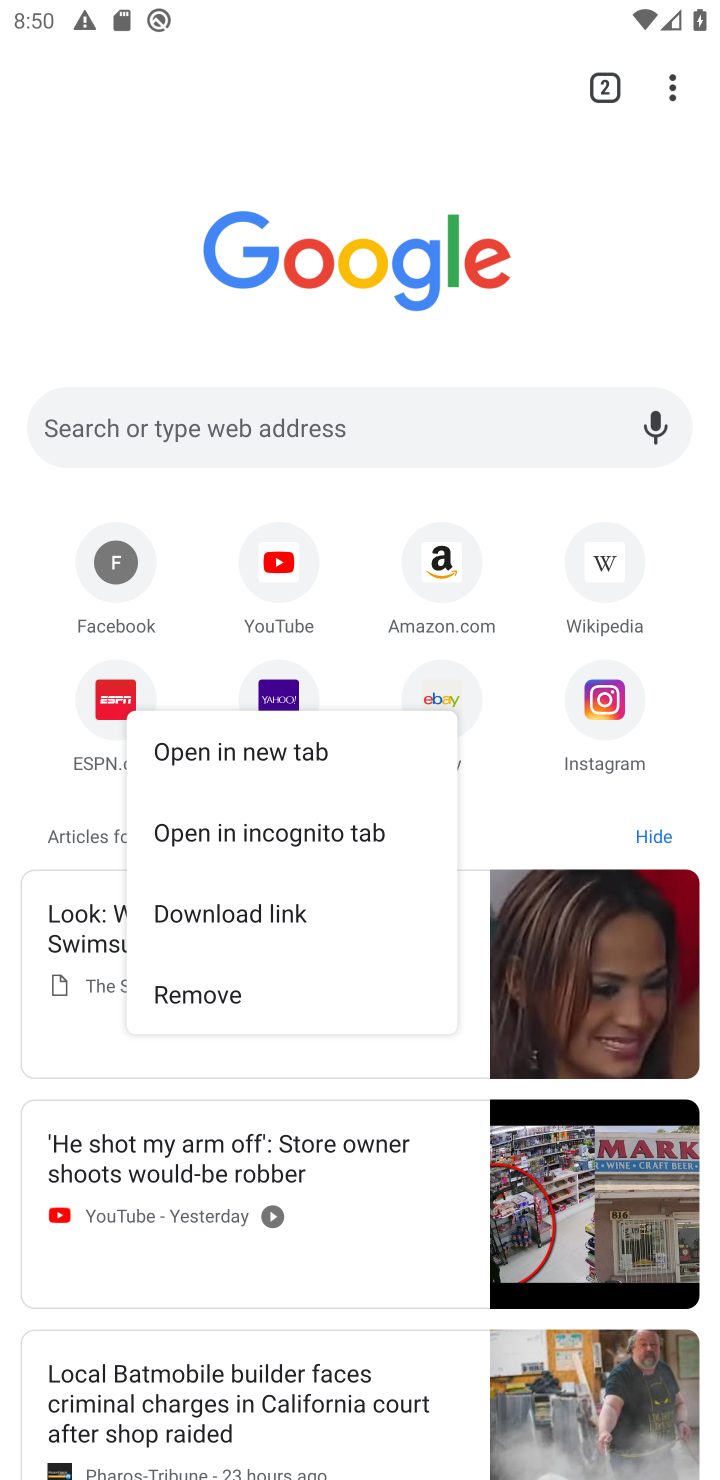
Step 28: click (200, 739)
Your task to perform on an android device: Go to ESPN.com Image 29: 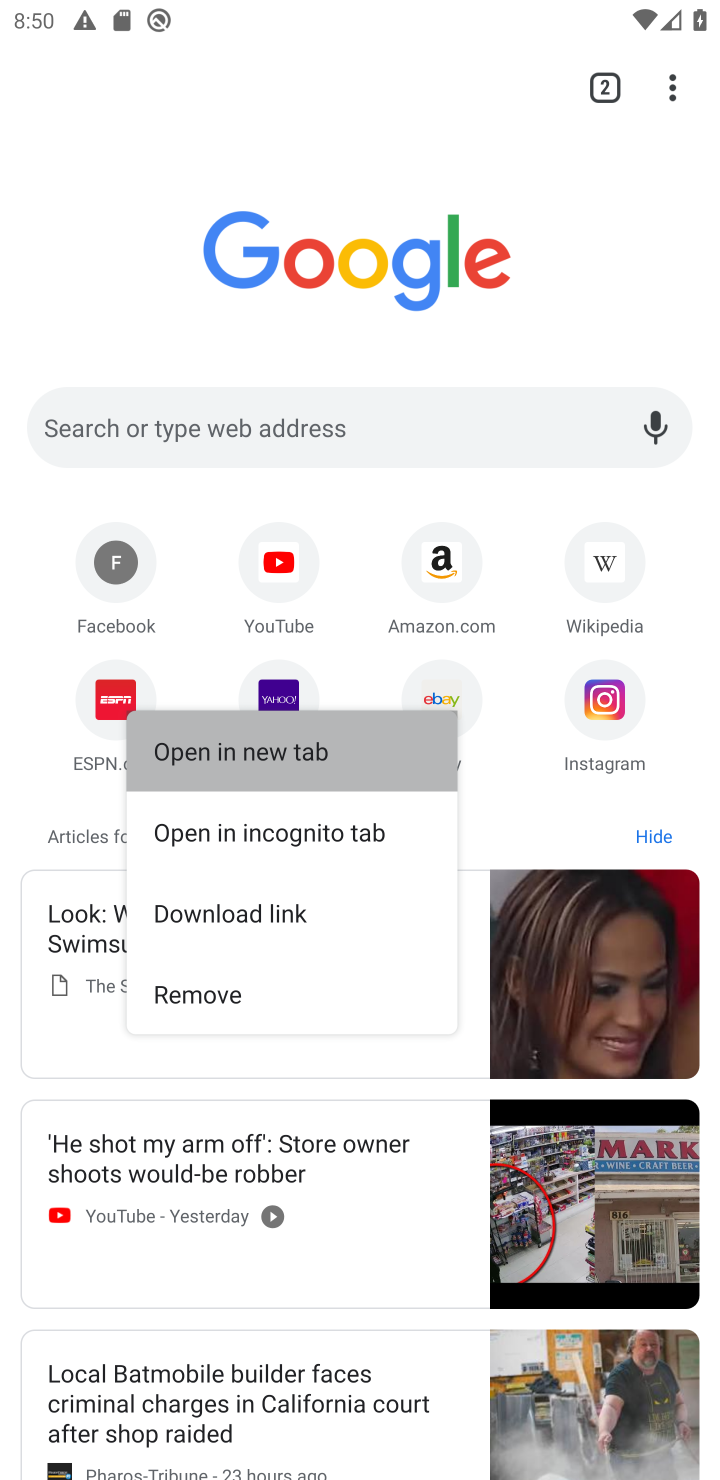
Step 29: click (221, 734)
Your task to perform on an android device: Go to ESPN.com Image 30: 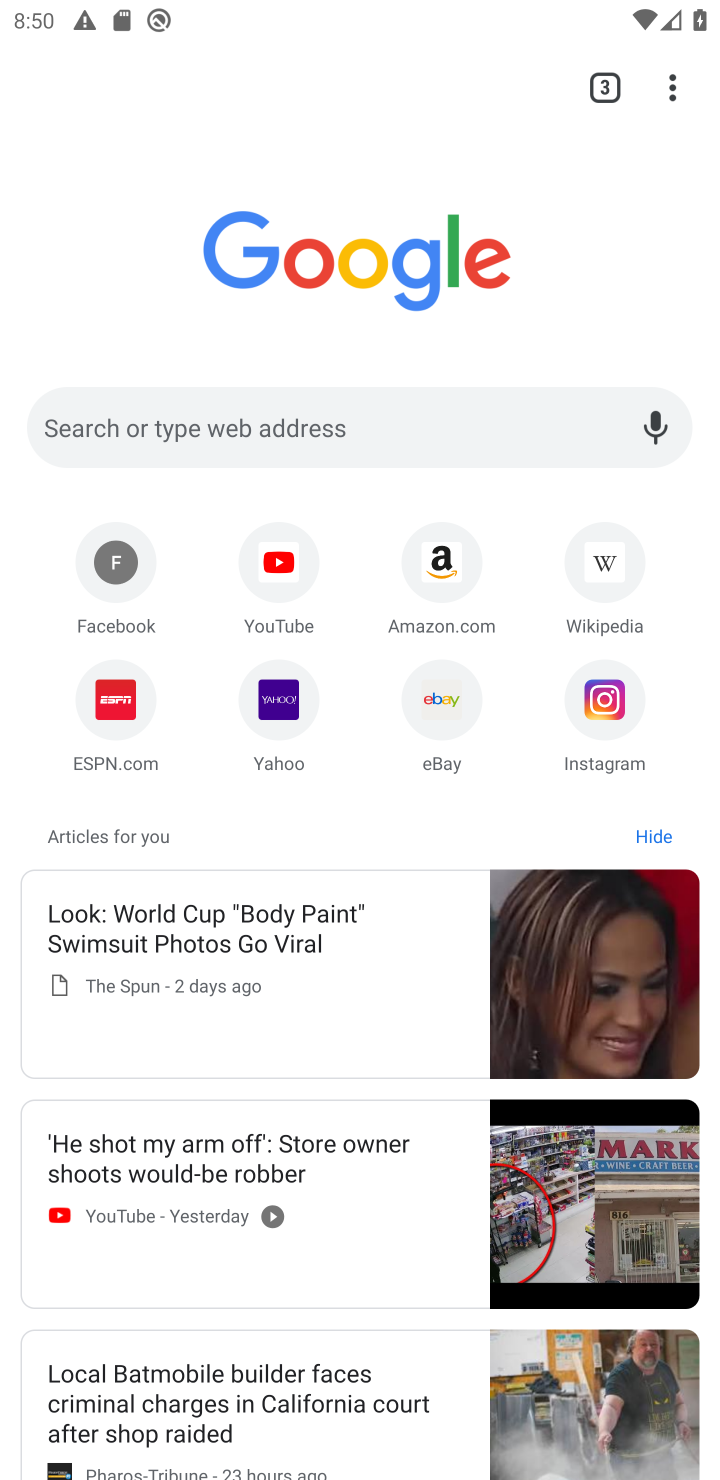
Step 30: click (123, 692)
Your task to perform on an android device: Go to ESPN.com Image 31: 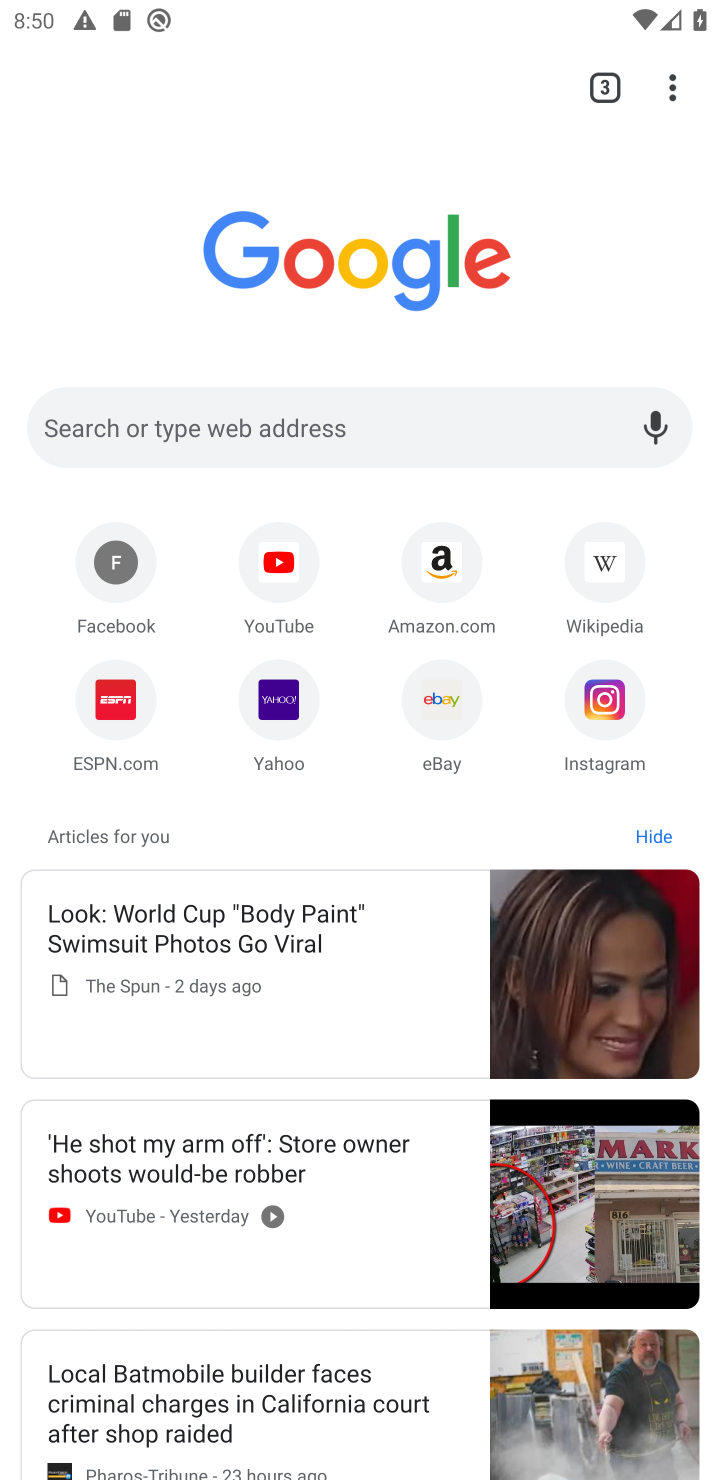
Step 31: click (123, 692)
Your task to perform on an android device: Go to ESPN.com Image 32: 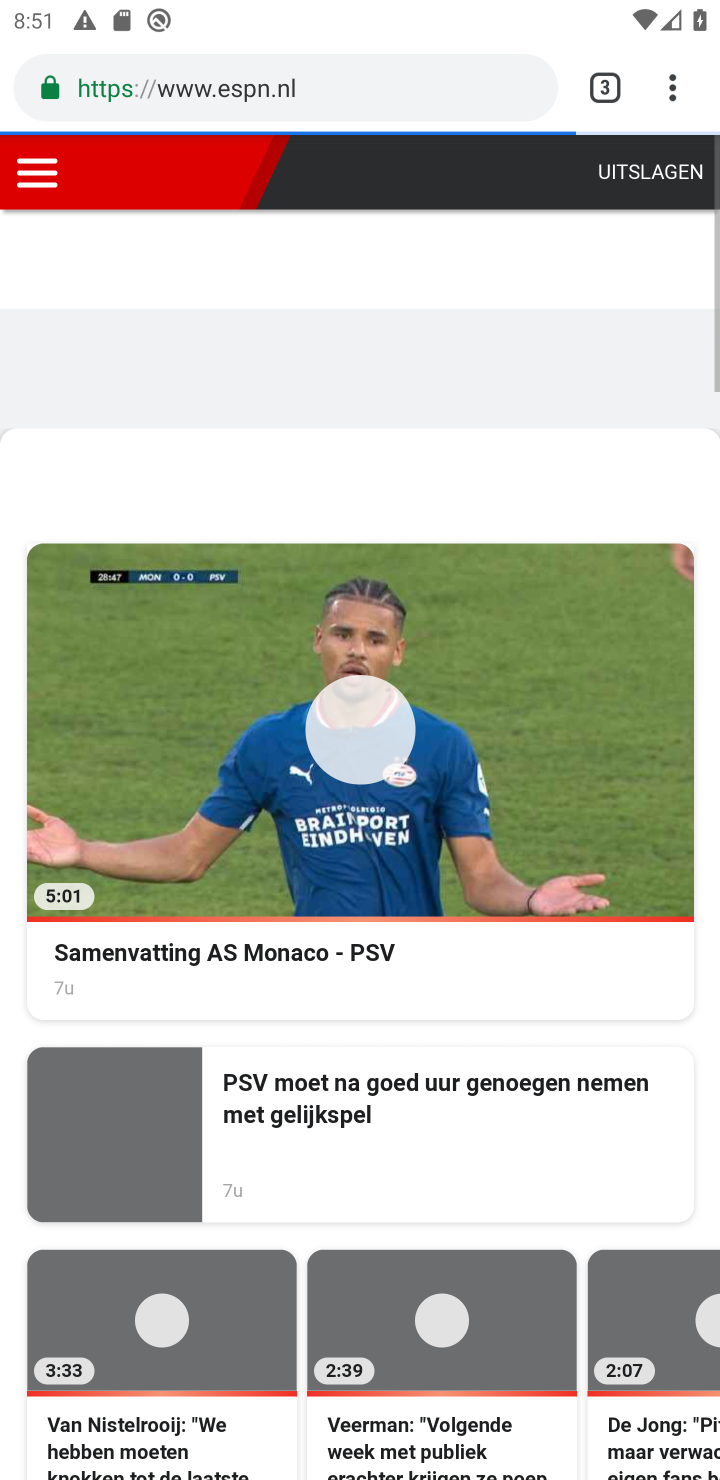
Step 32: task complete